Your task to perform on an android device: What is the capital of Spain? Image 0: 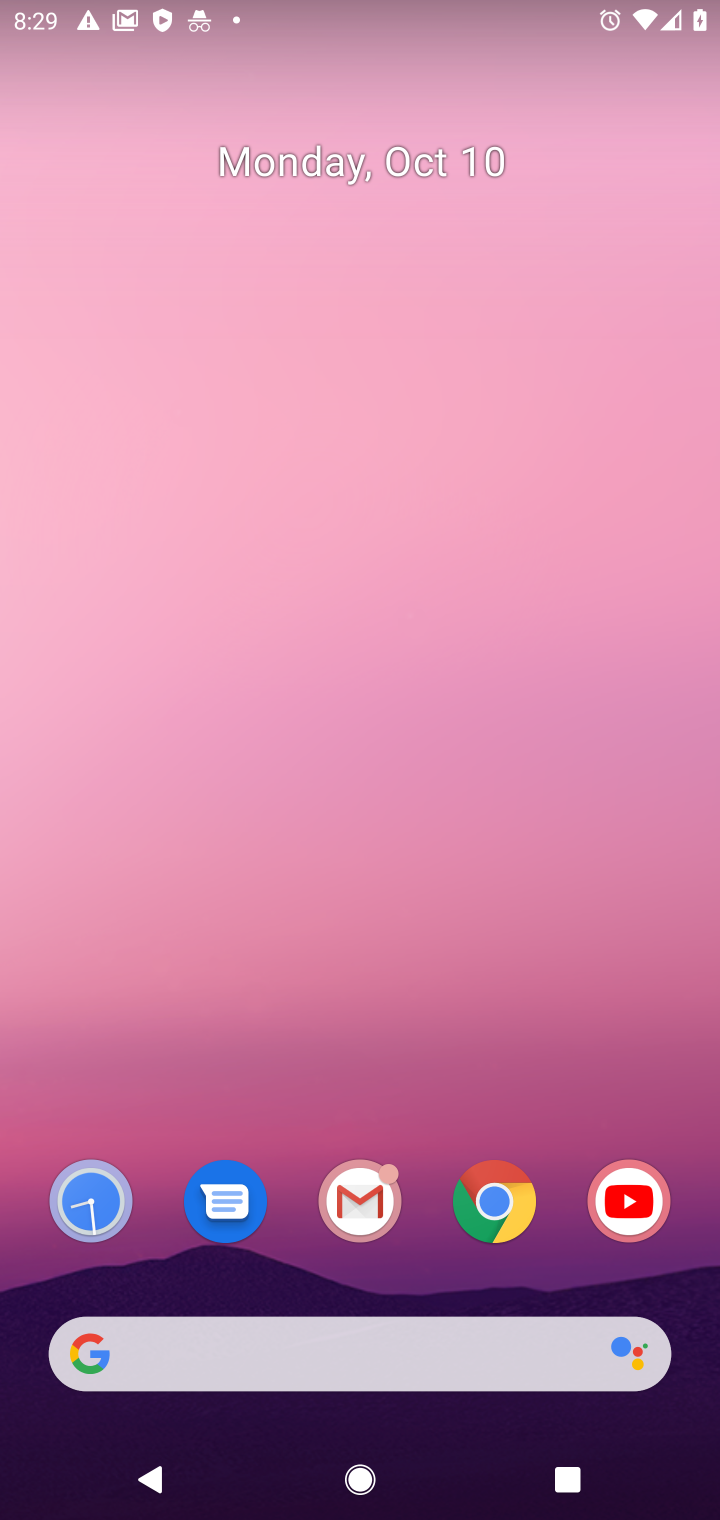
Step 0: click (490, 1235)
Your task to perform on an android device: What is the capital of Spain? Image 1: 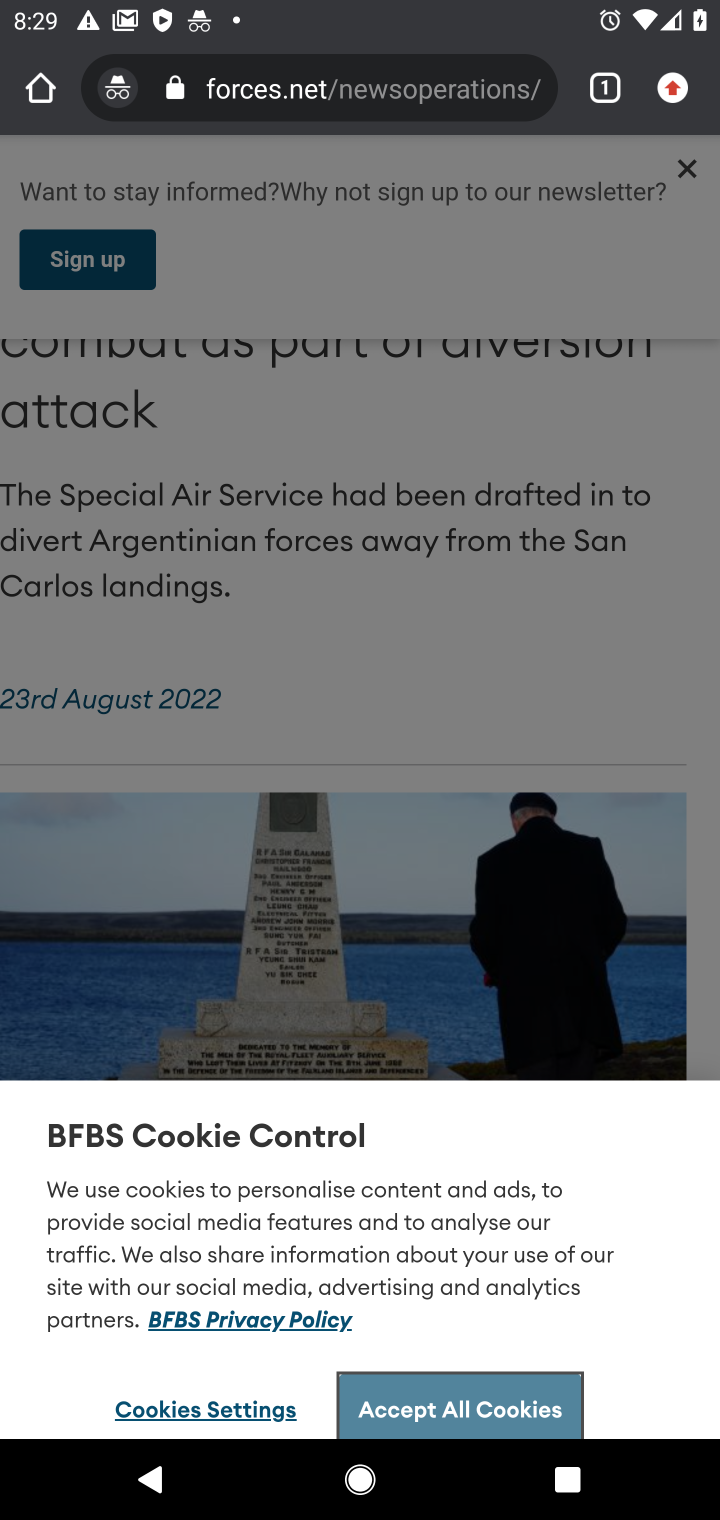
Step 1: click (320, 78)
Your task to perform on an android device: What is the capital of Spain? Image 2: 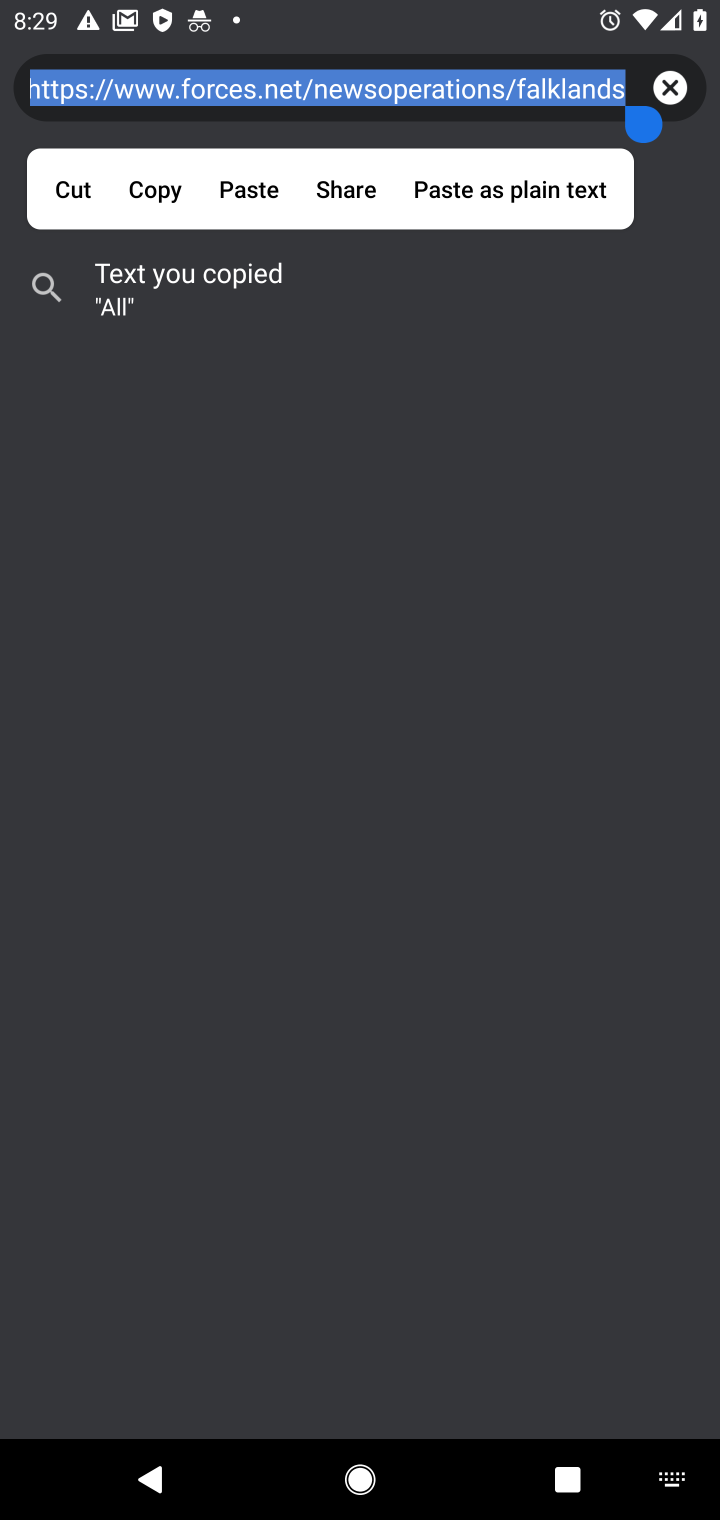
Step 2: type "What is the capital of Spain?"
Your task to perform on an android device: What is the capital of Spain? Image 3: 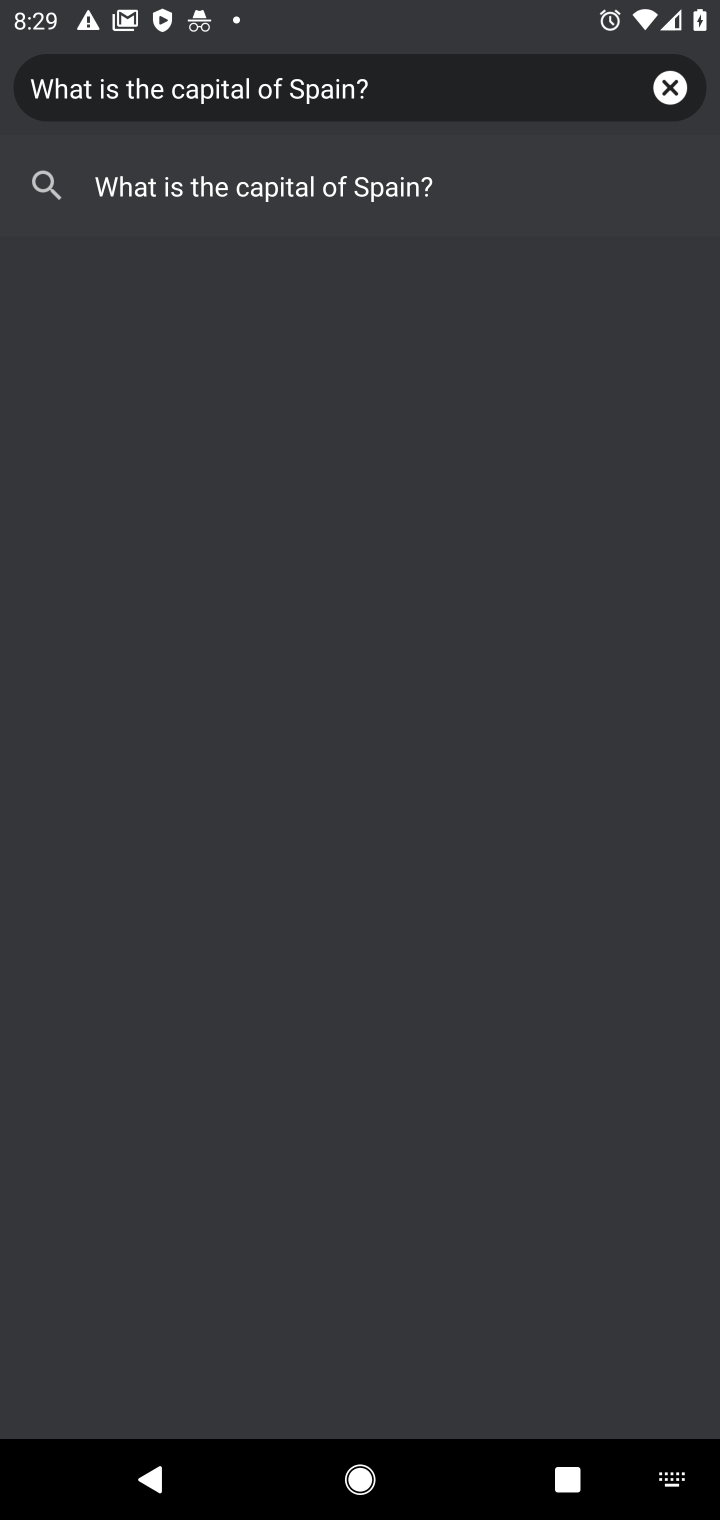
Step 3: type ""
Your task to perform on an android device: What is the capital of Spain? Image 4: 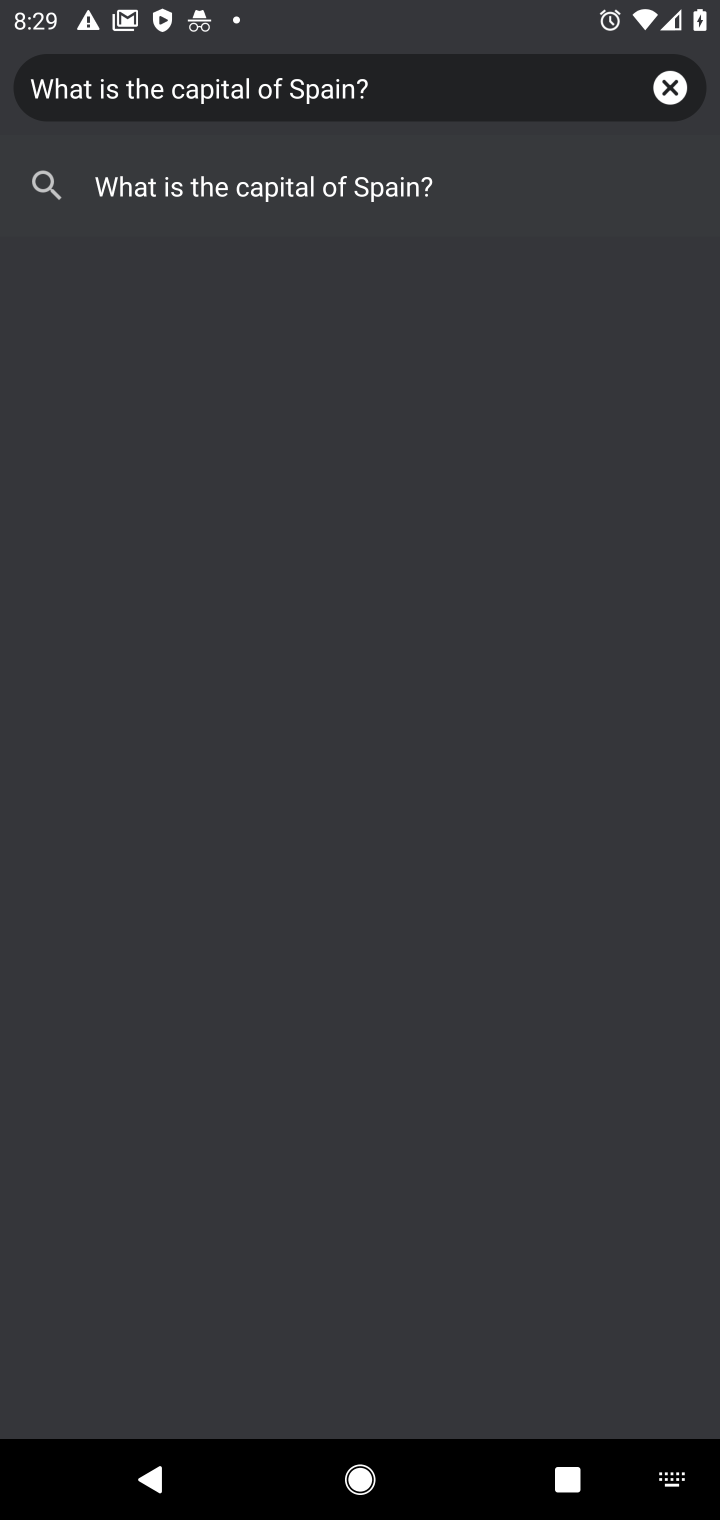
Step 4: click (390, 185)
Your task to perform on an android device: What is the capital of Spain? Image 5: 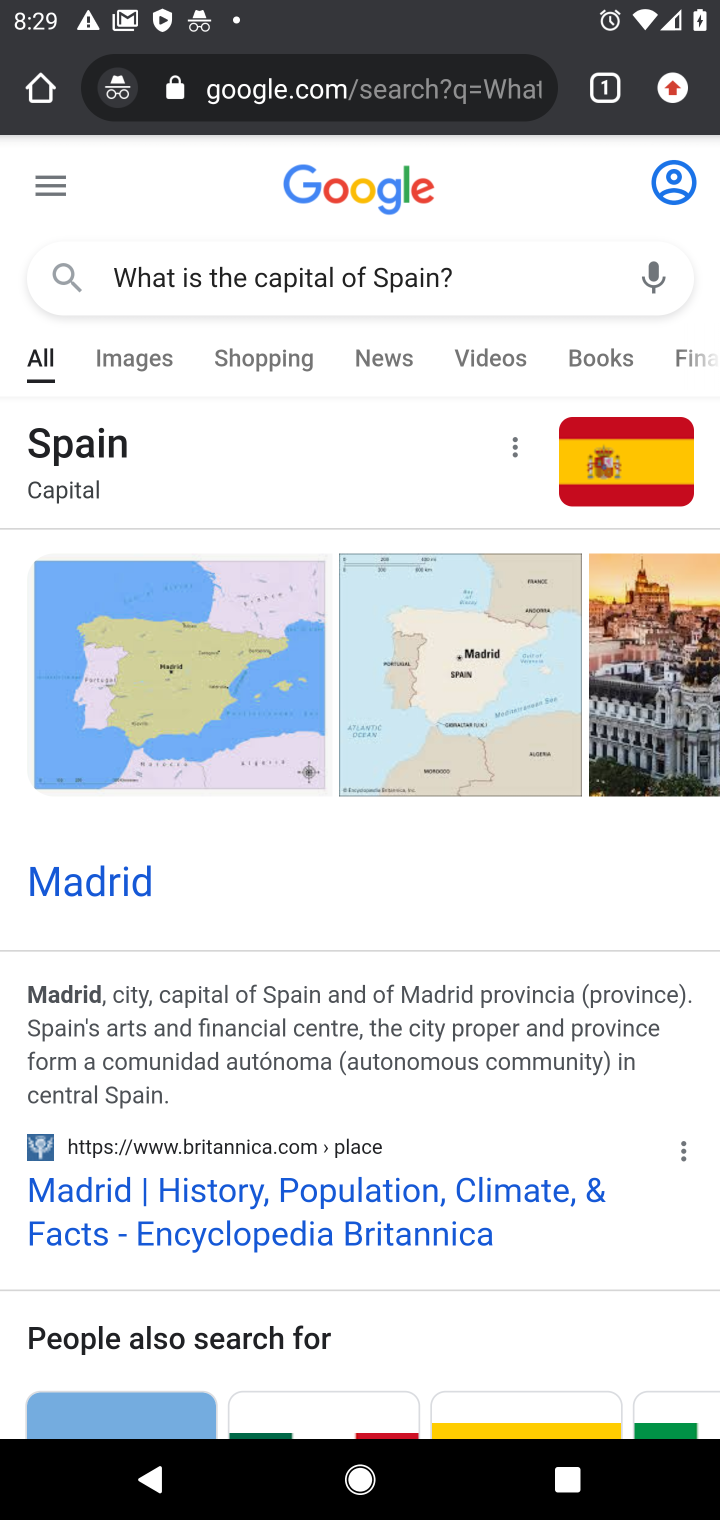
Step 5: drag from (161, 1029) to (246, 494)
Your task to perform on an android device: What is the capital of Spain? Image 6: 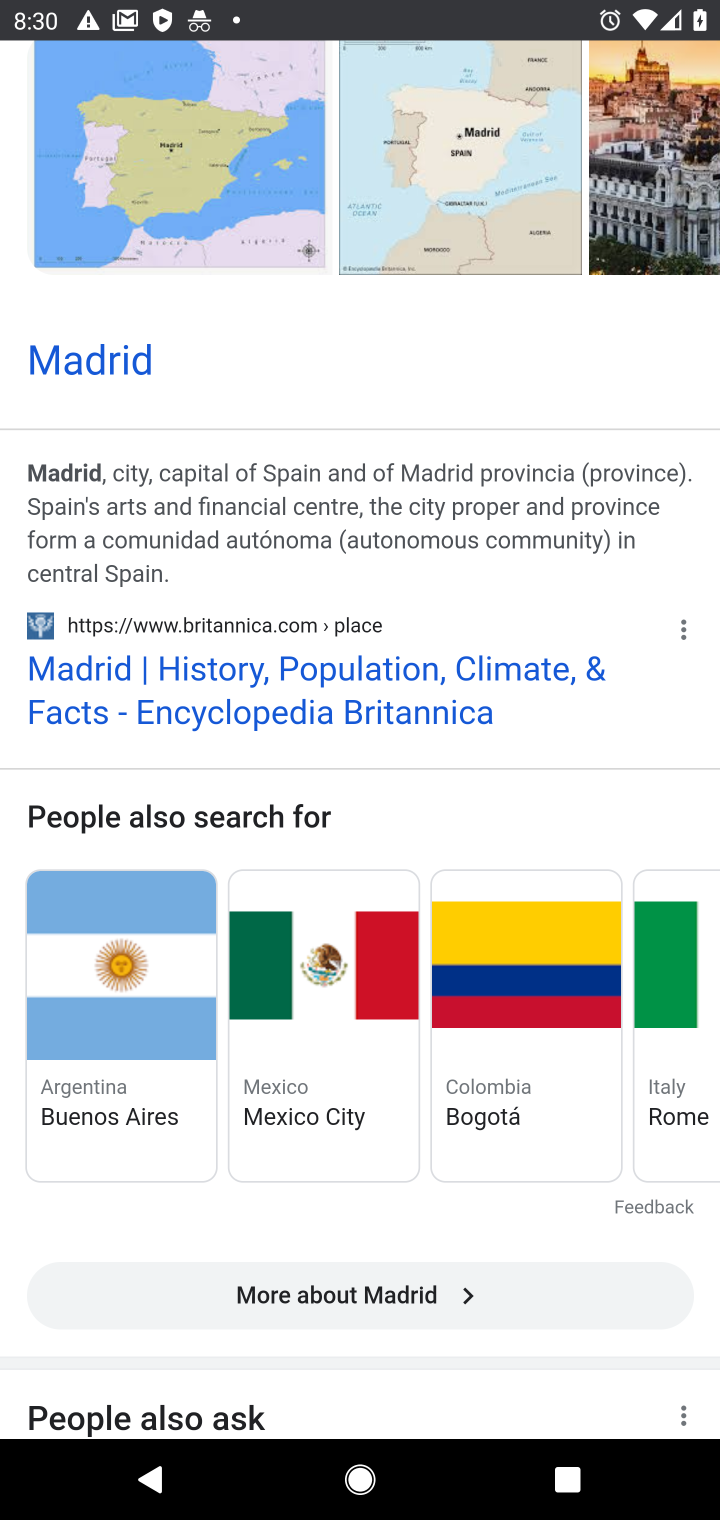
Step 6: click (190, 695)
Your task to perform on an android device: What is the capital of Spain? Image 7: 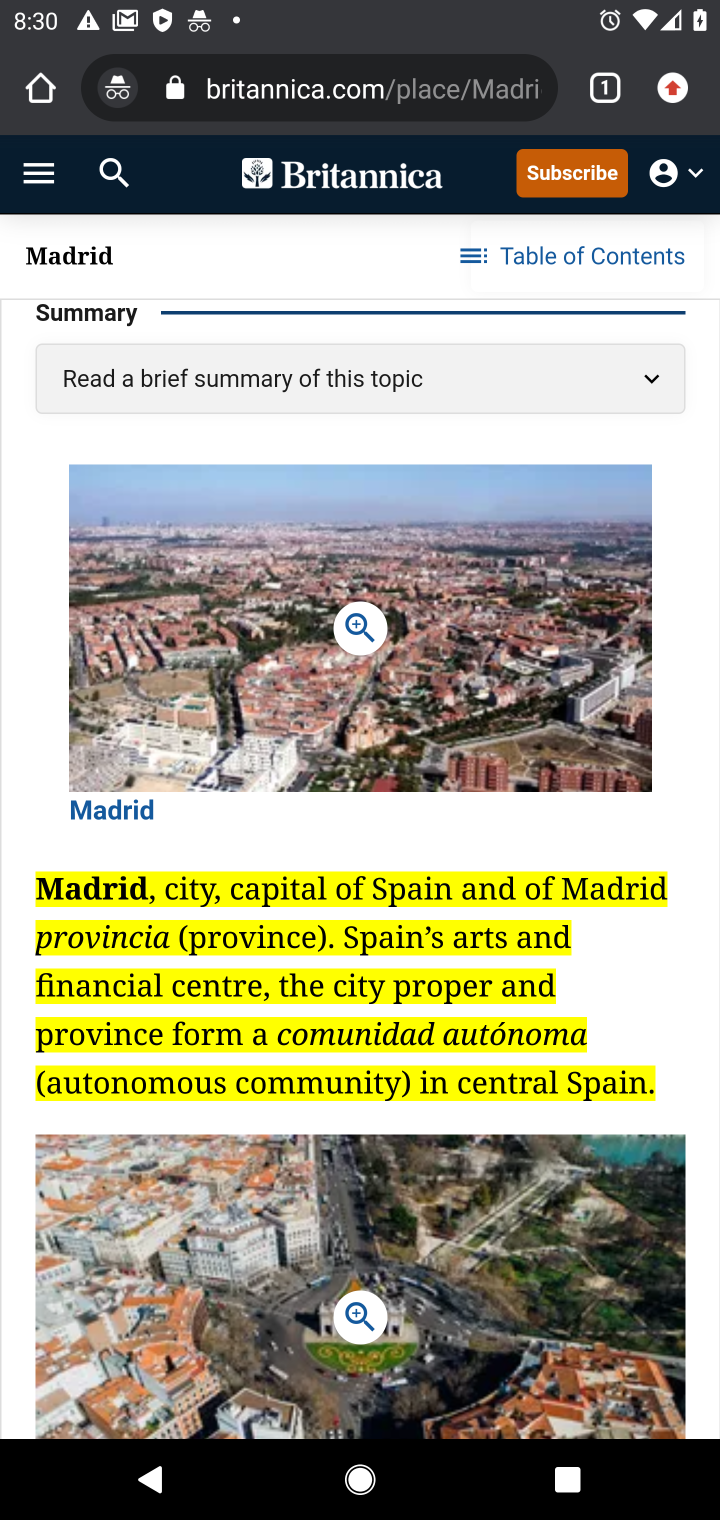
Step 7: drag from (460, 1244) to (595, 311)
Your task to perform on an android device: What is the capital of Spain? Image 8: 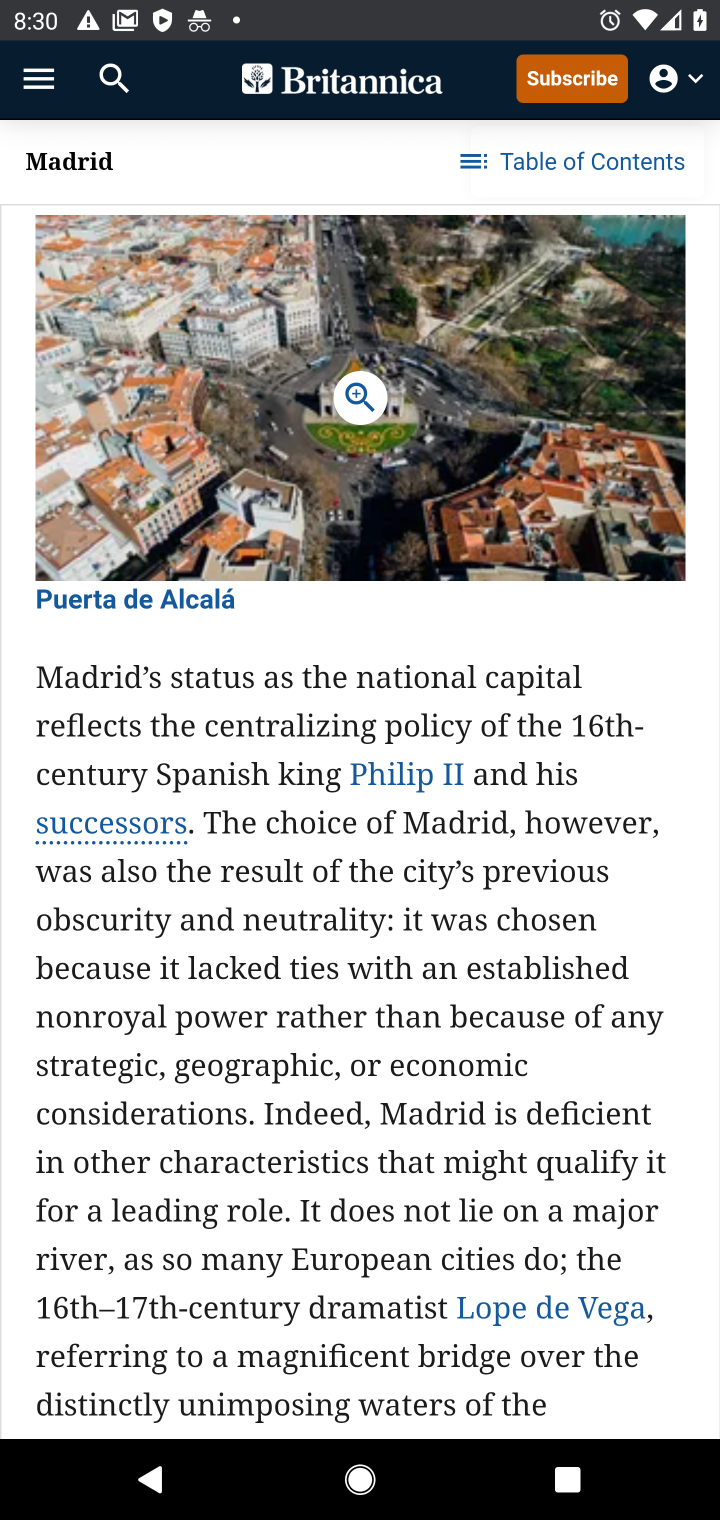
Step 8: drag from (645, 1164) to (601, 180)
Your task to perform on an android device: What is the capital of Spain? Image 9: 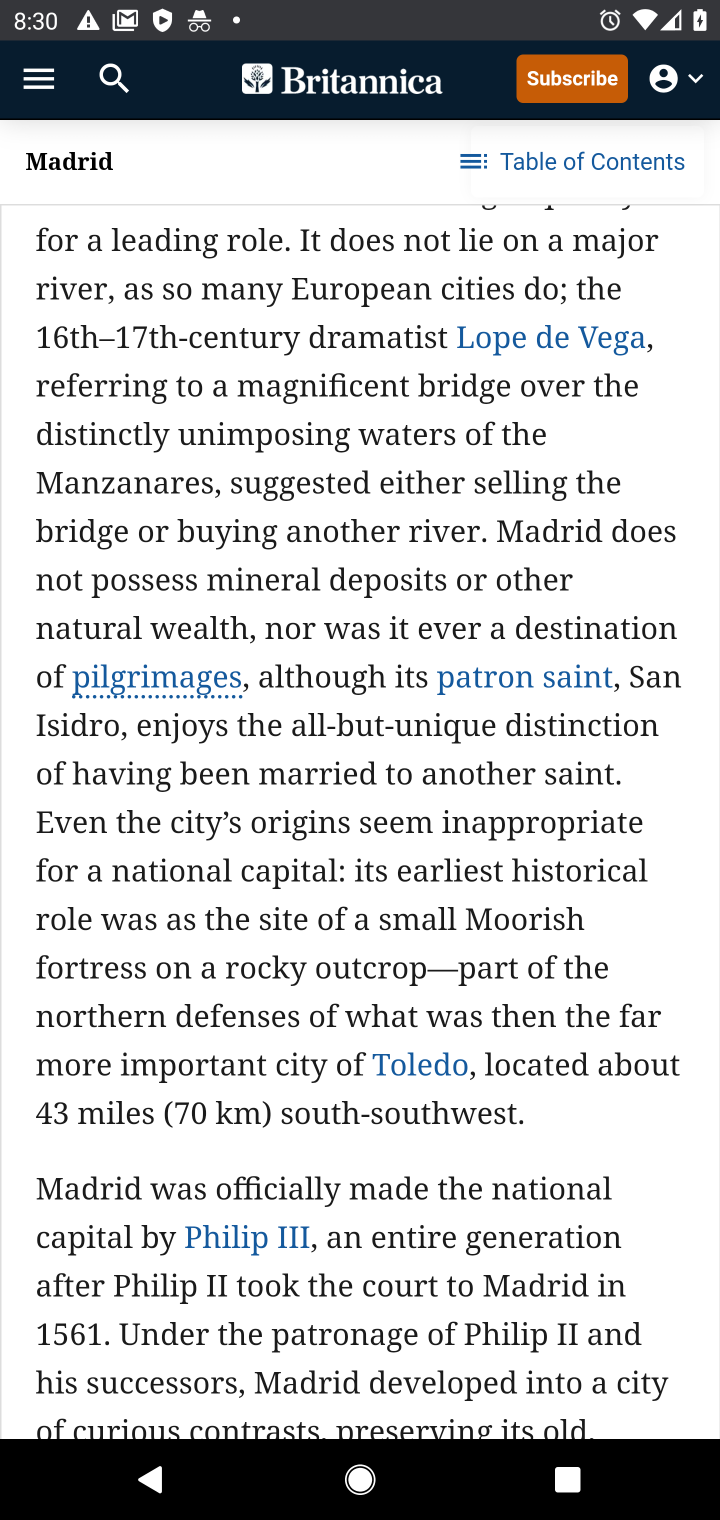
Step 9: drag from (561, 730) to (570, 285)
Your task to perform on an android device: What is the capital of Spain? Image 10: 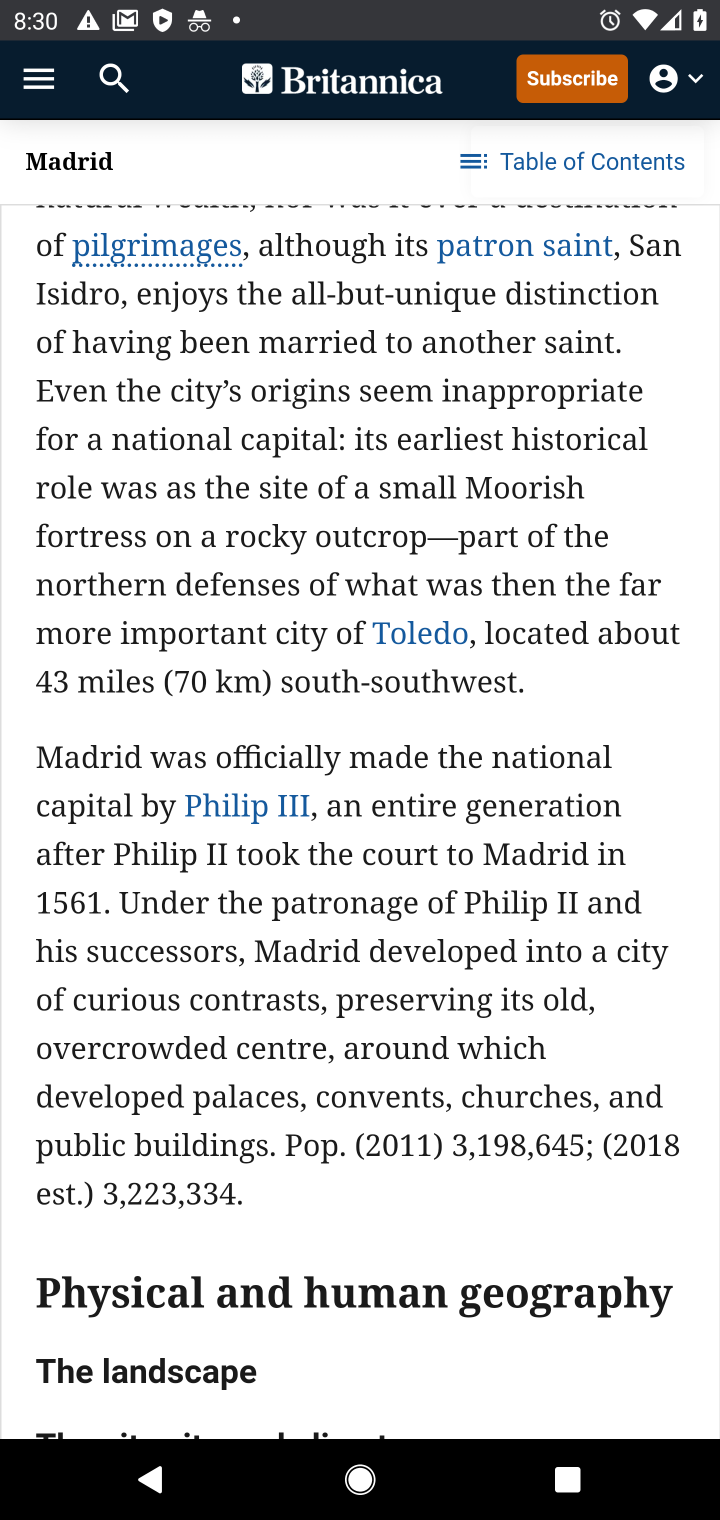
Step 10: drag from (540, 886) to (565, 590)
Your task to perform on an android device: What is the capital of Spain? Image 11: 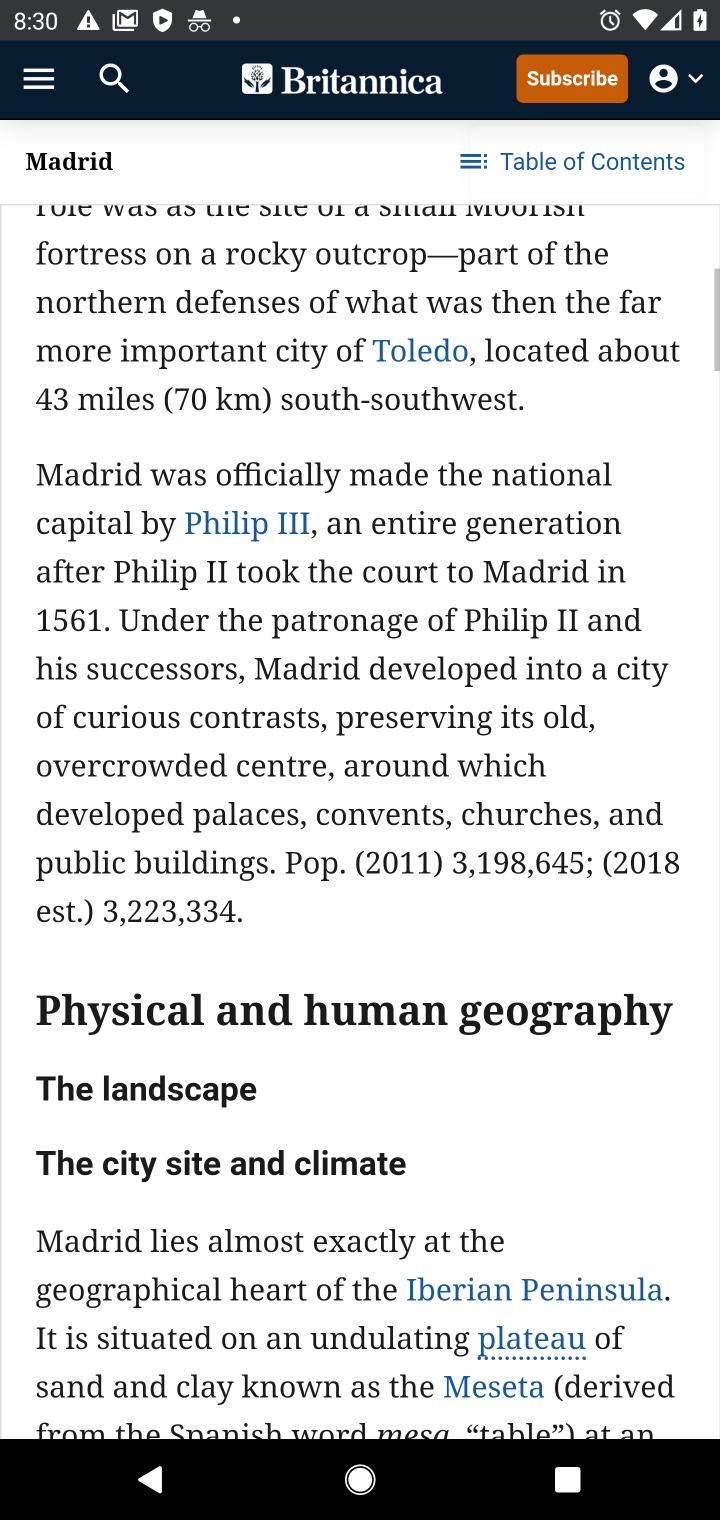
Step 11: drag from (532, 1017) to (649, 331)
Your task to perform on an android device: What is the capital of Spain? Image 12: 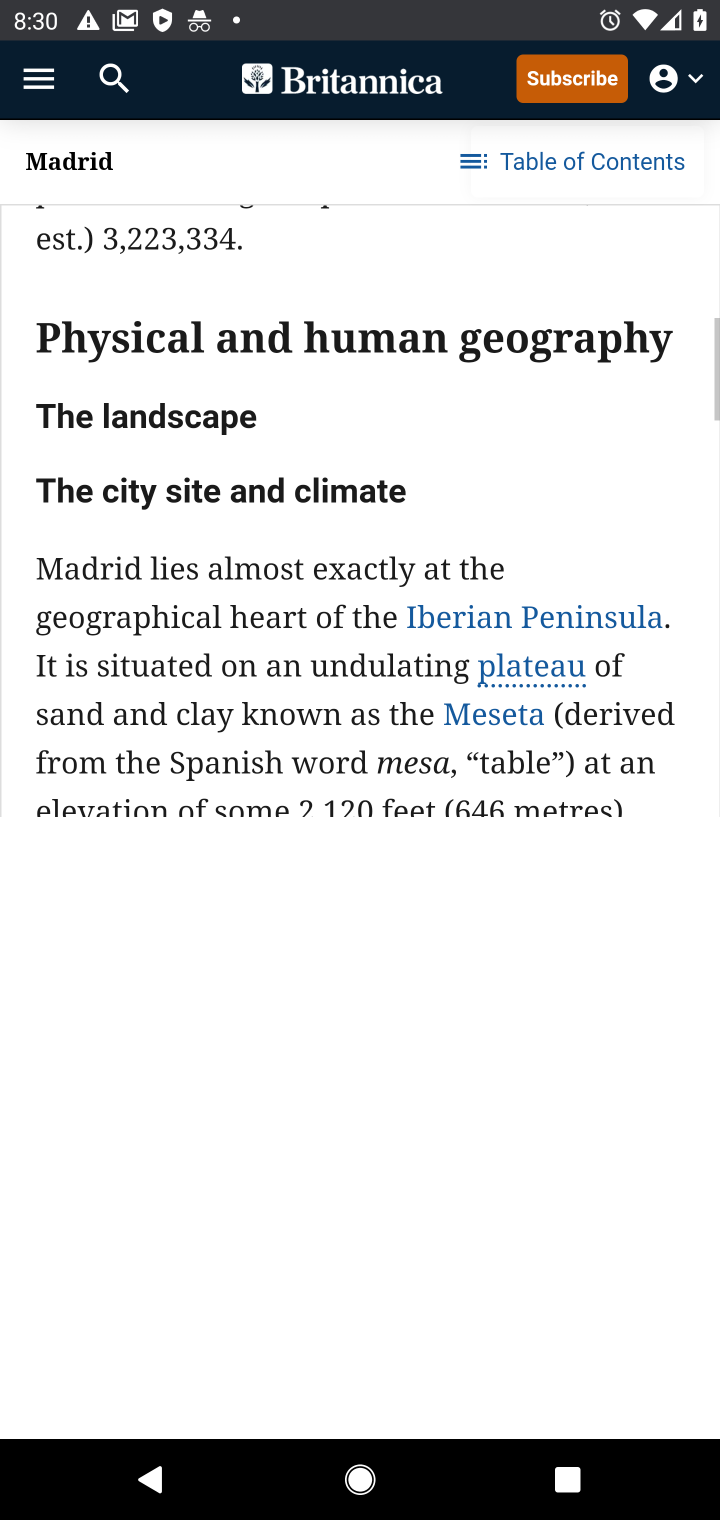
Step 12: drag from (660, 785) to (664, 476)
Your task to perform on an android device: What is the capital of Spain? Image 13: 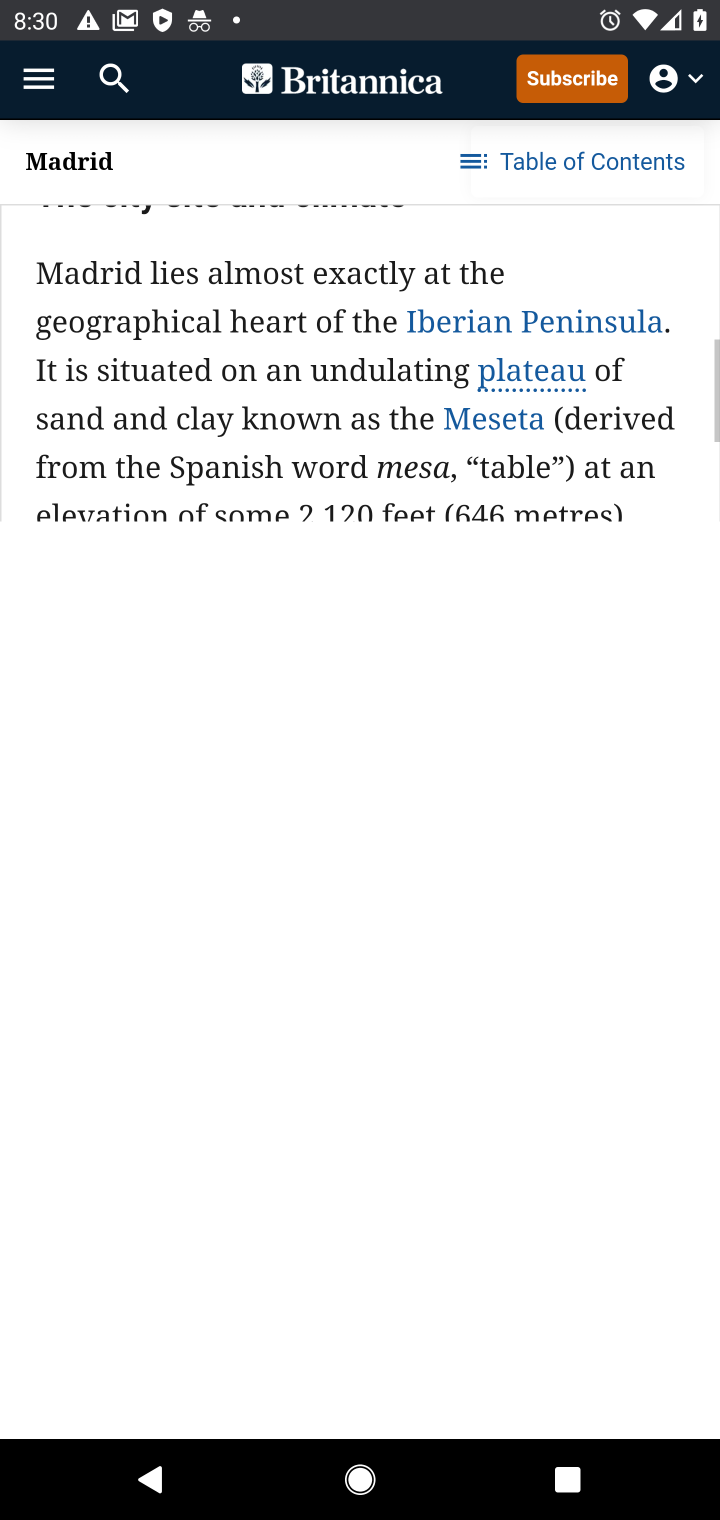
Step 13: drag from (642, 826) to (637, 399)
Your task to perform on an android device: What is the capital of Spain? Image 14: 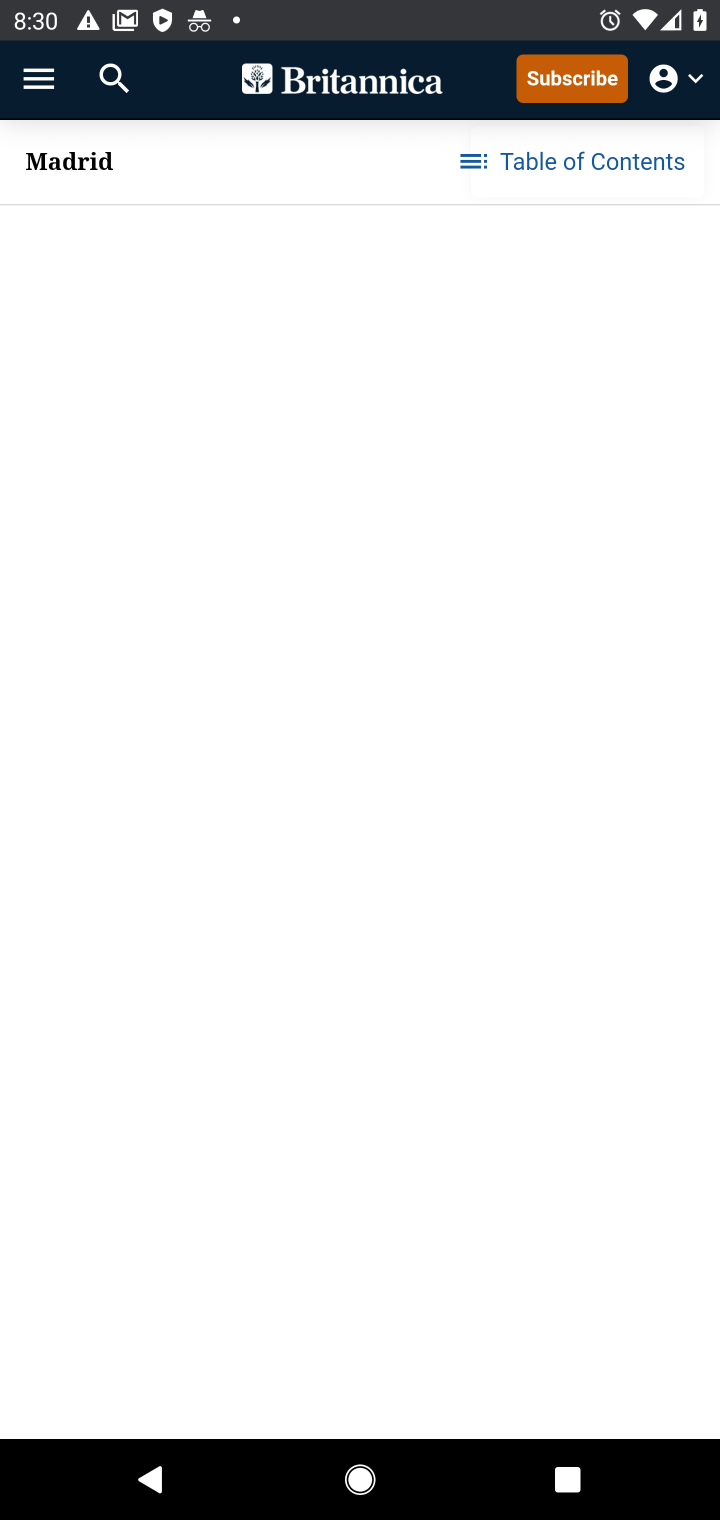
Step 14: drag from (337, 1041) to (324, 287)
Your task to perform on an android device: What is the capital of Spain? Image 15: 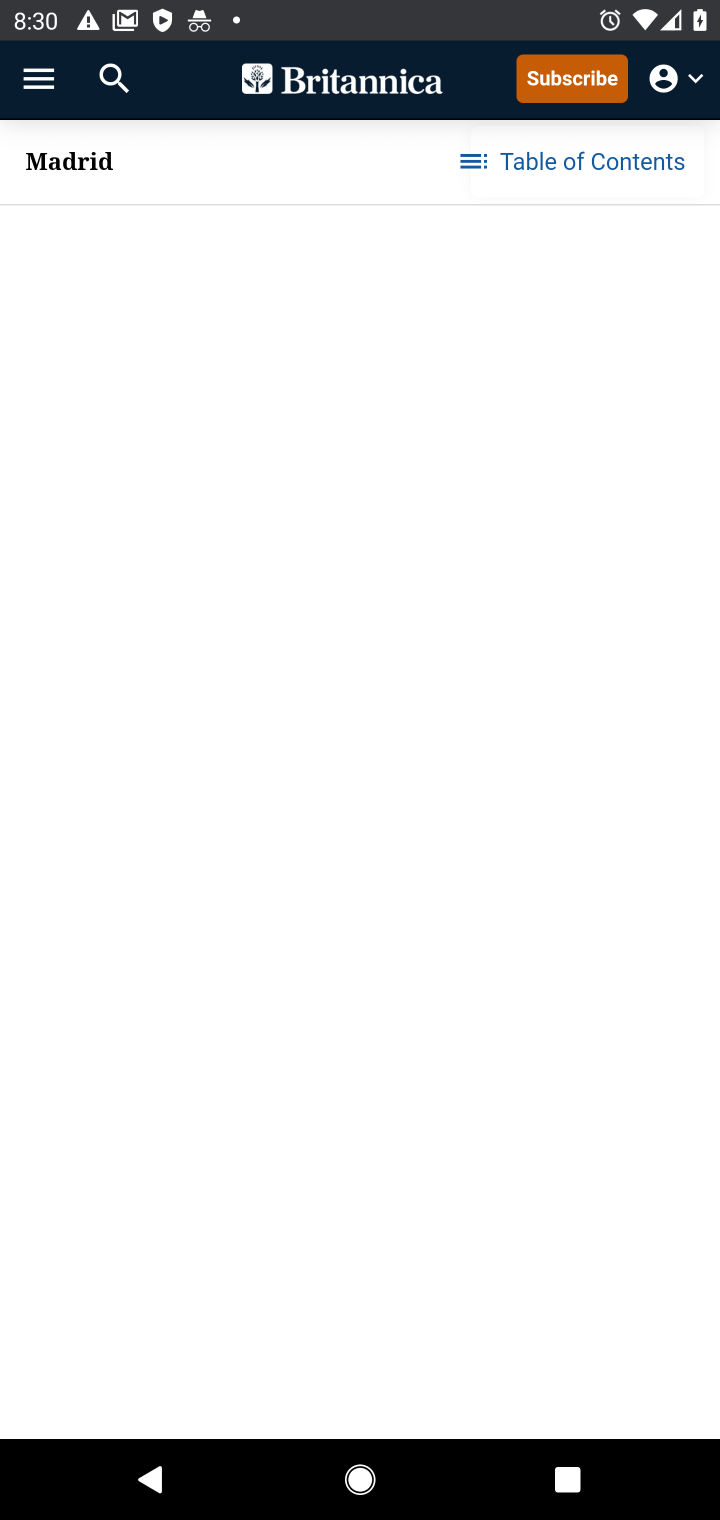
Step 15: drag from (303, 516) to (236, 337)
Your task to perform on an android device: What is the capital of Spain? Image 16: 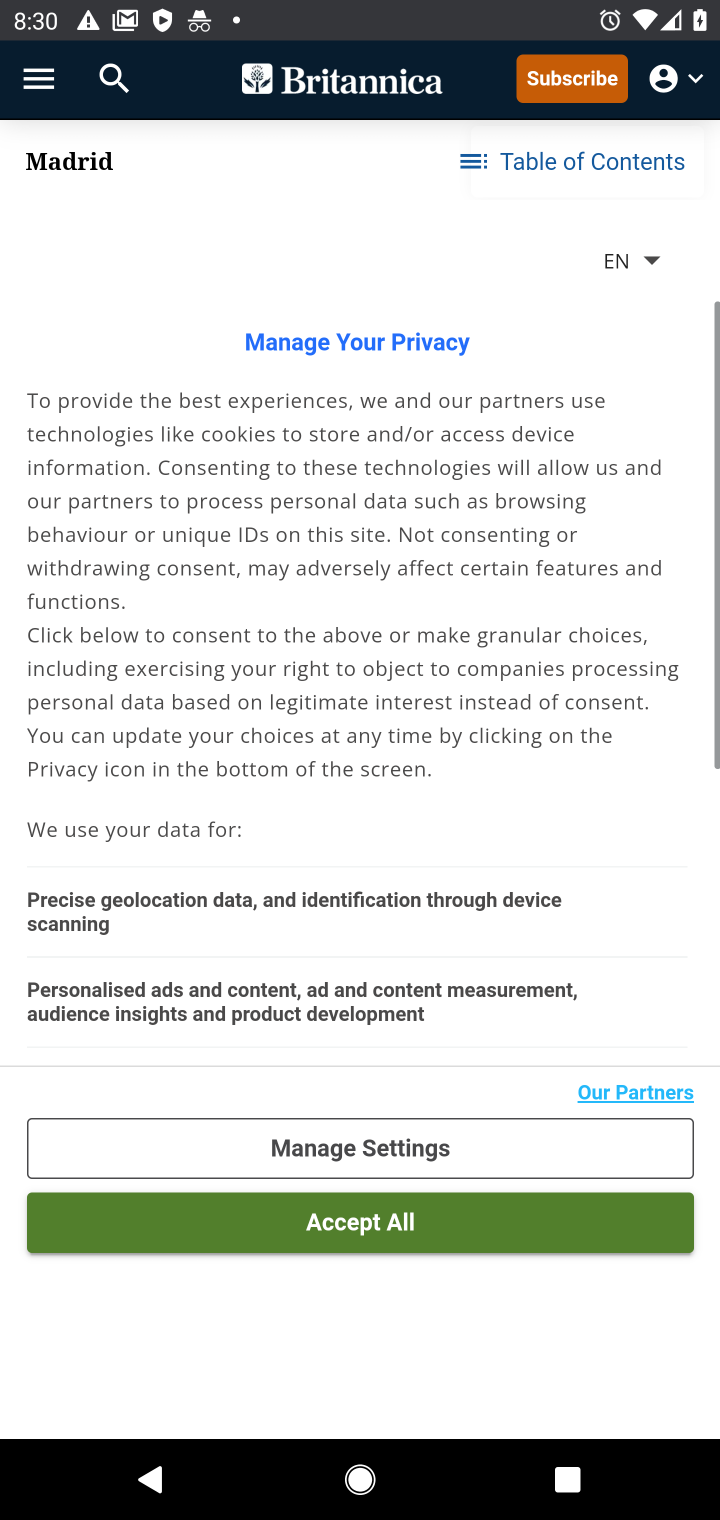
Step 16: drag from (202, 509) to (231, 811)
Your task to perform on an android device: What is the capital of Spain? Image 17: 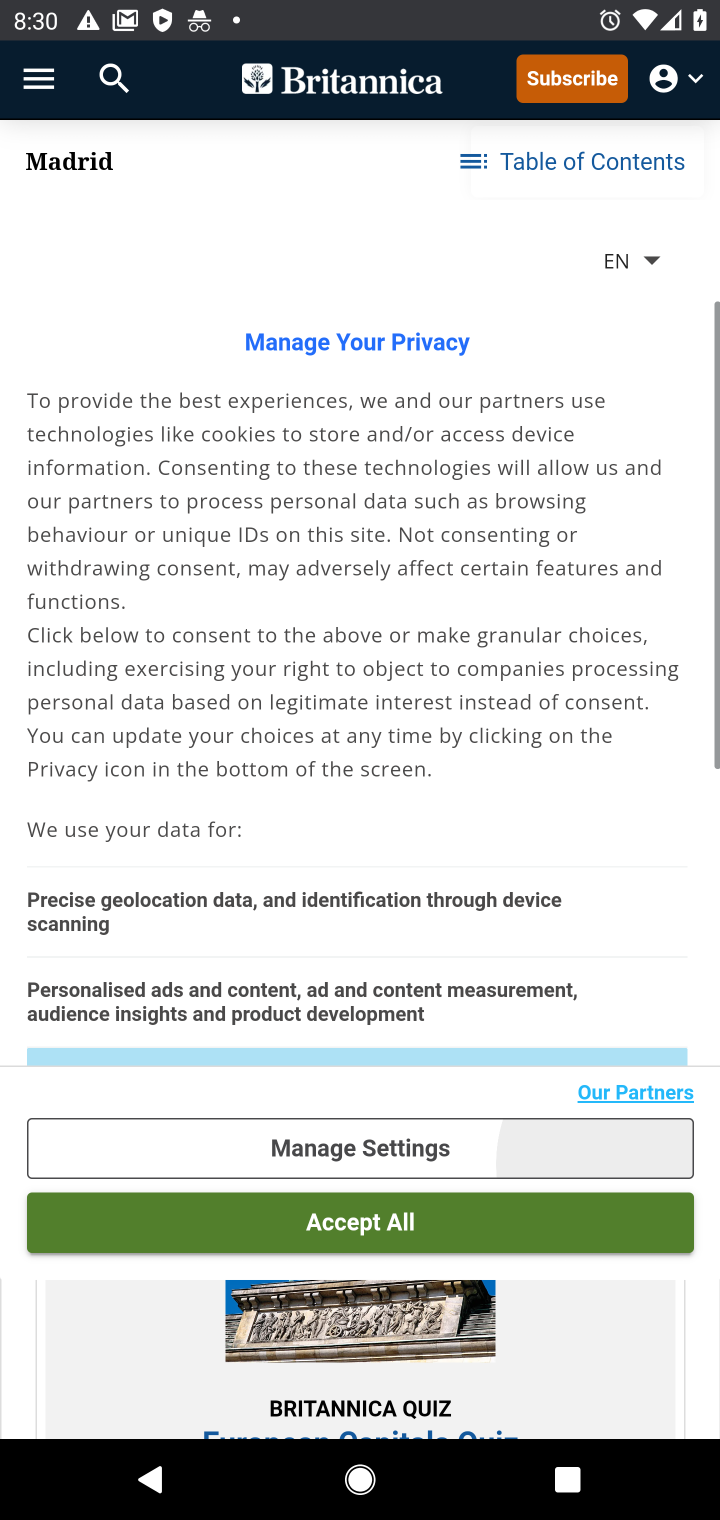
Step 17: click (334, 1231)
Your task to perform on an android device: What is the capital of Spain? Image 18: 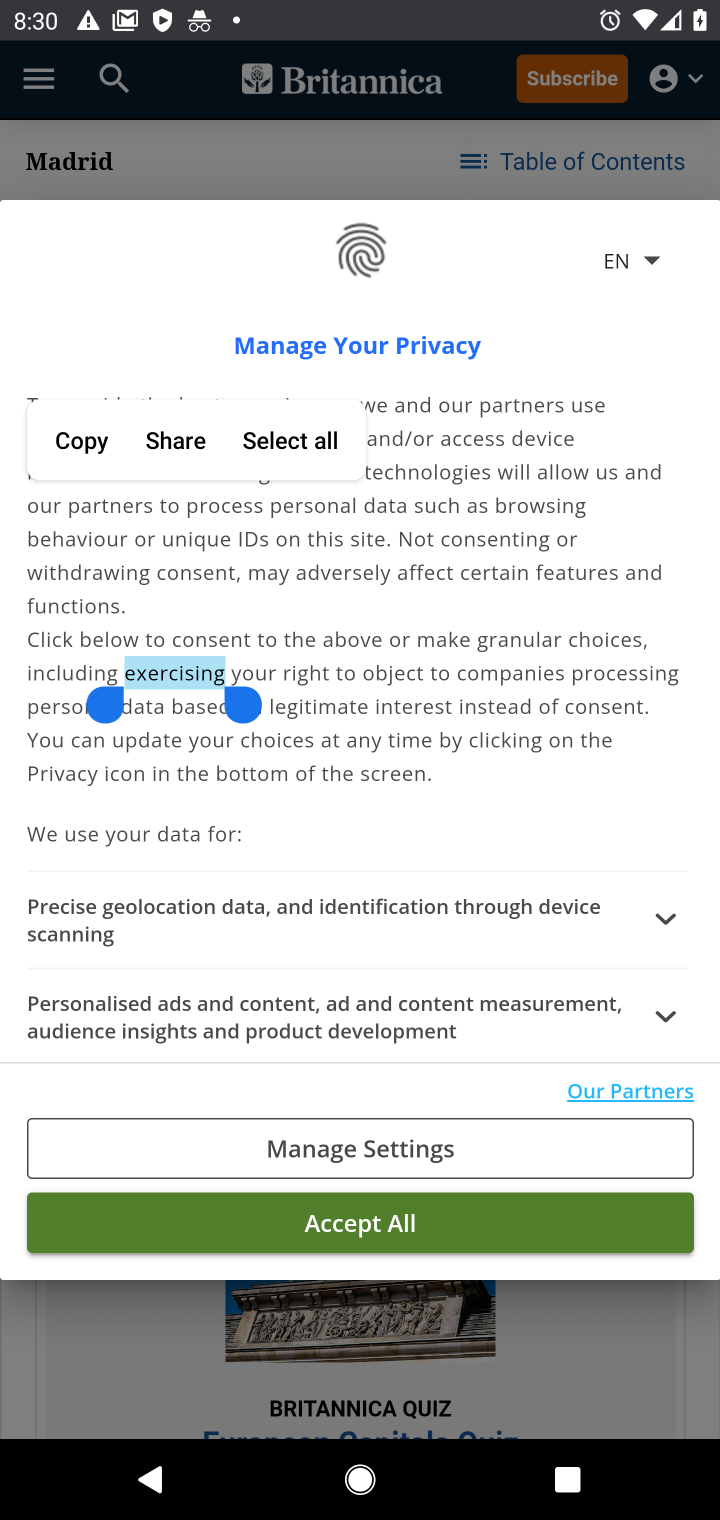
Step 18: click (334, 1231)
Your task to perform on an android device: What is the capital of Spain? Image 19: 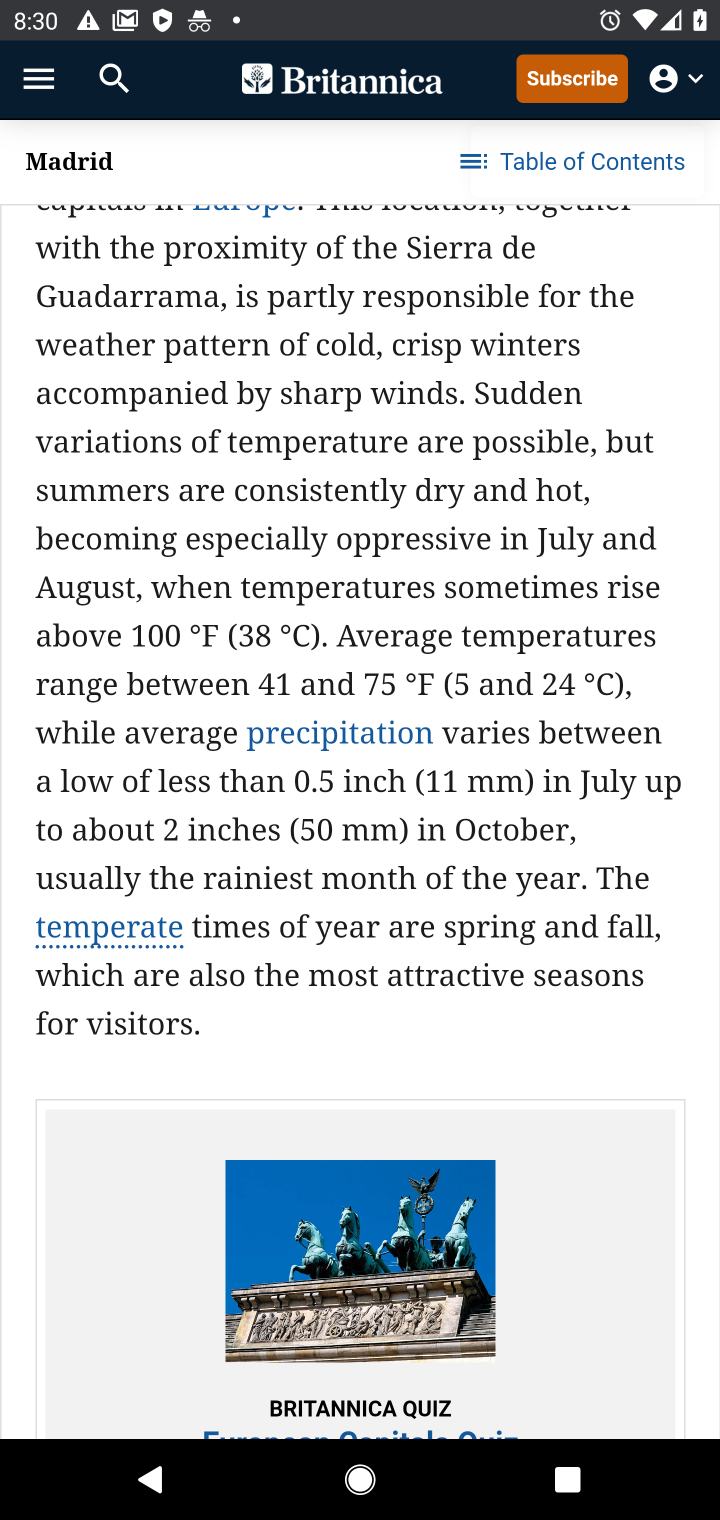
Step 19: drag from (520, 967) to (554, 208)
Your task to perform on an android device: What is the capital of Spain? Image 20: 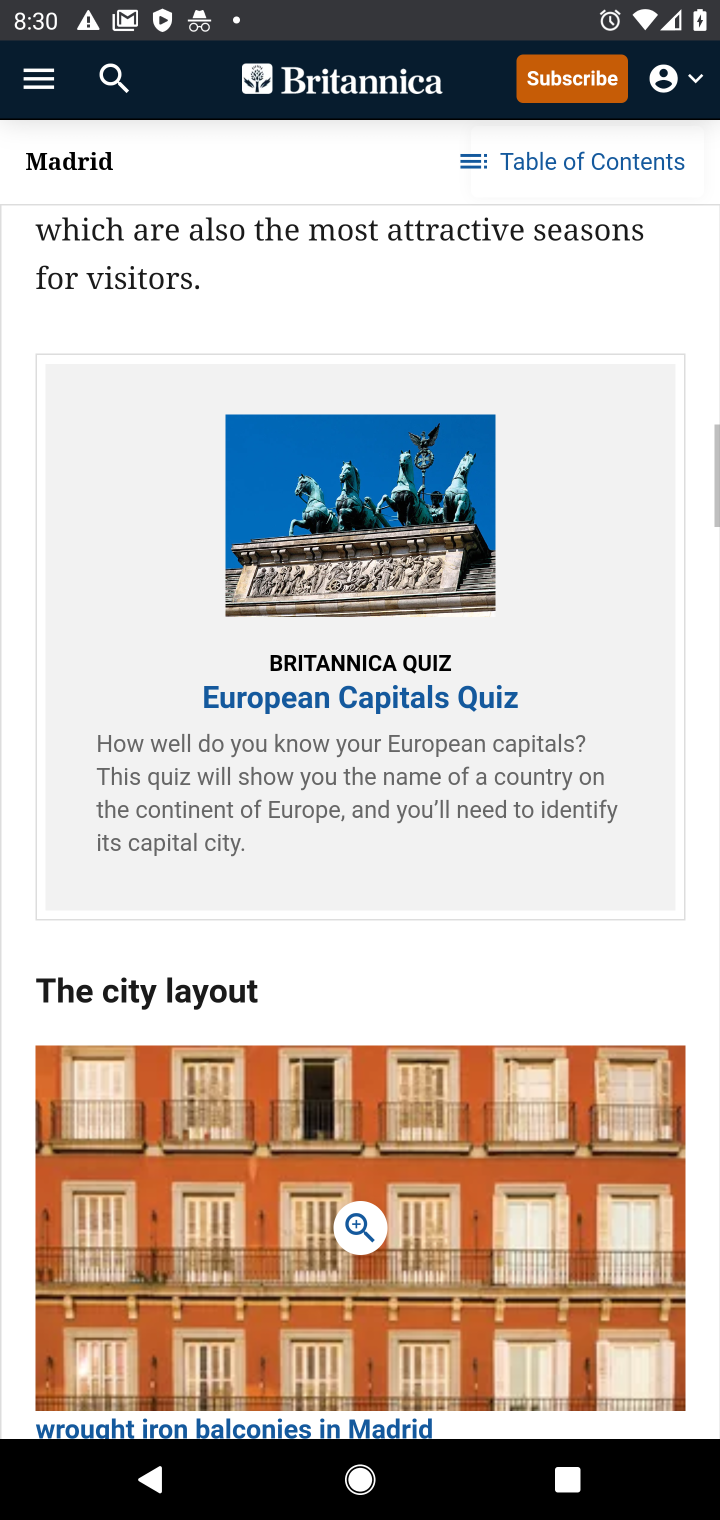
Step 20: drag from (494, 1154) to (567, 259)
Your task to perform on an android device: What is the capital of Spain? Image 21: 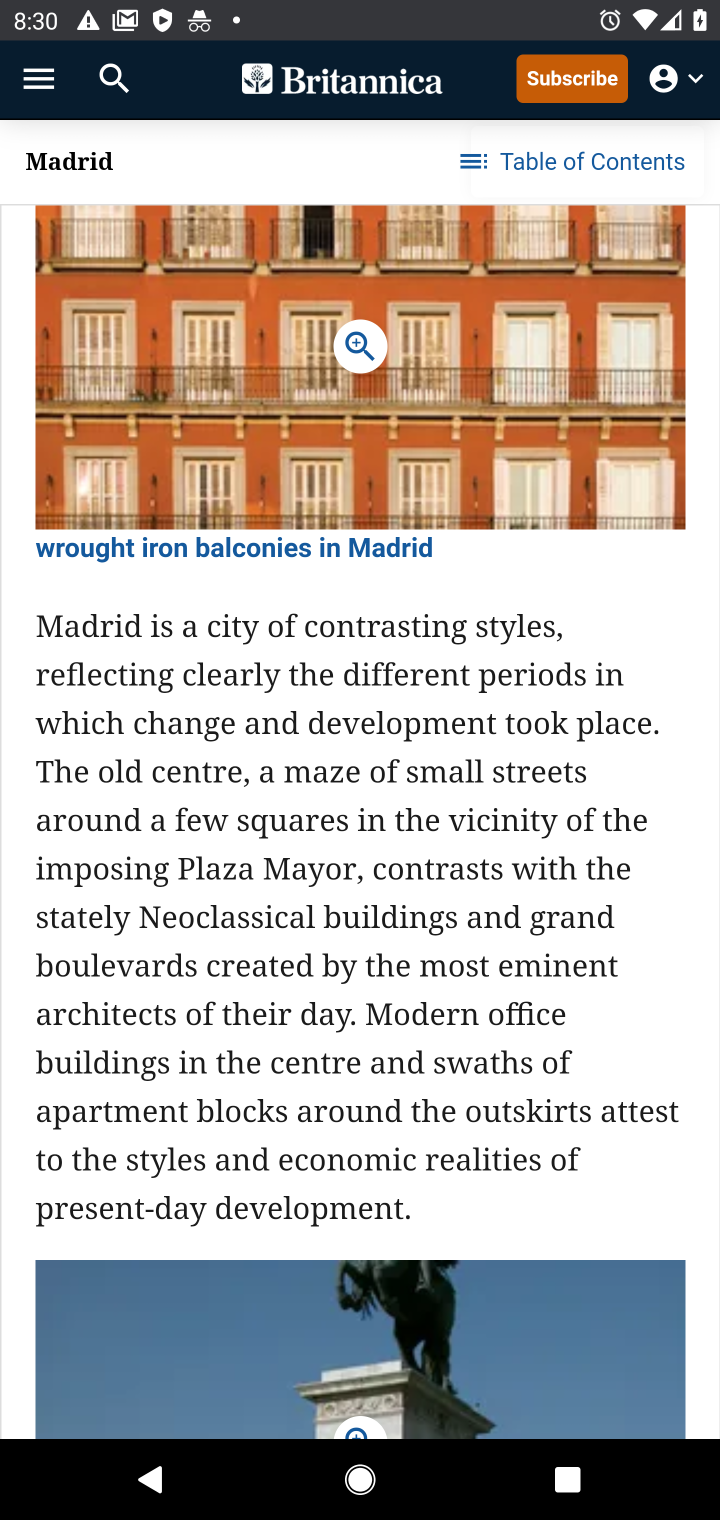
Step 21: drag from (374, 1167) to (433, 186)
Your task to perform on an android device: What is the capital of Spain? Image 22: 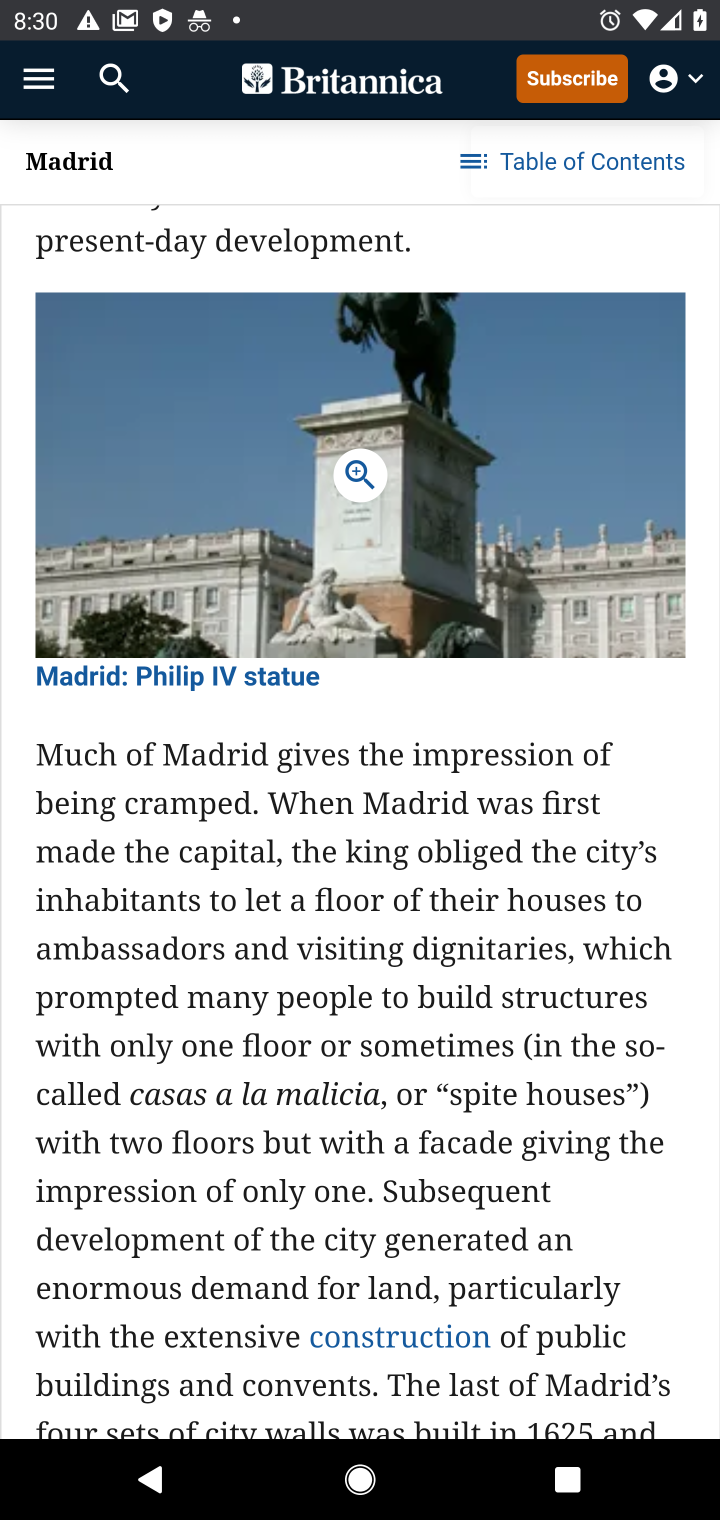
Step 22: drag from (543, 1281) to (500, 226)
Your task to perform on an android device: What is the capital of Spain? Image 23: 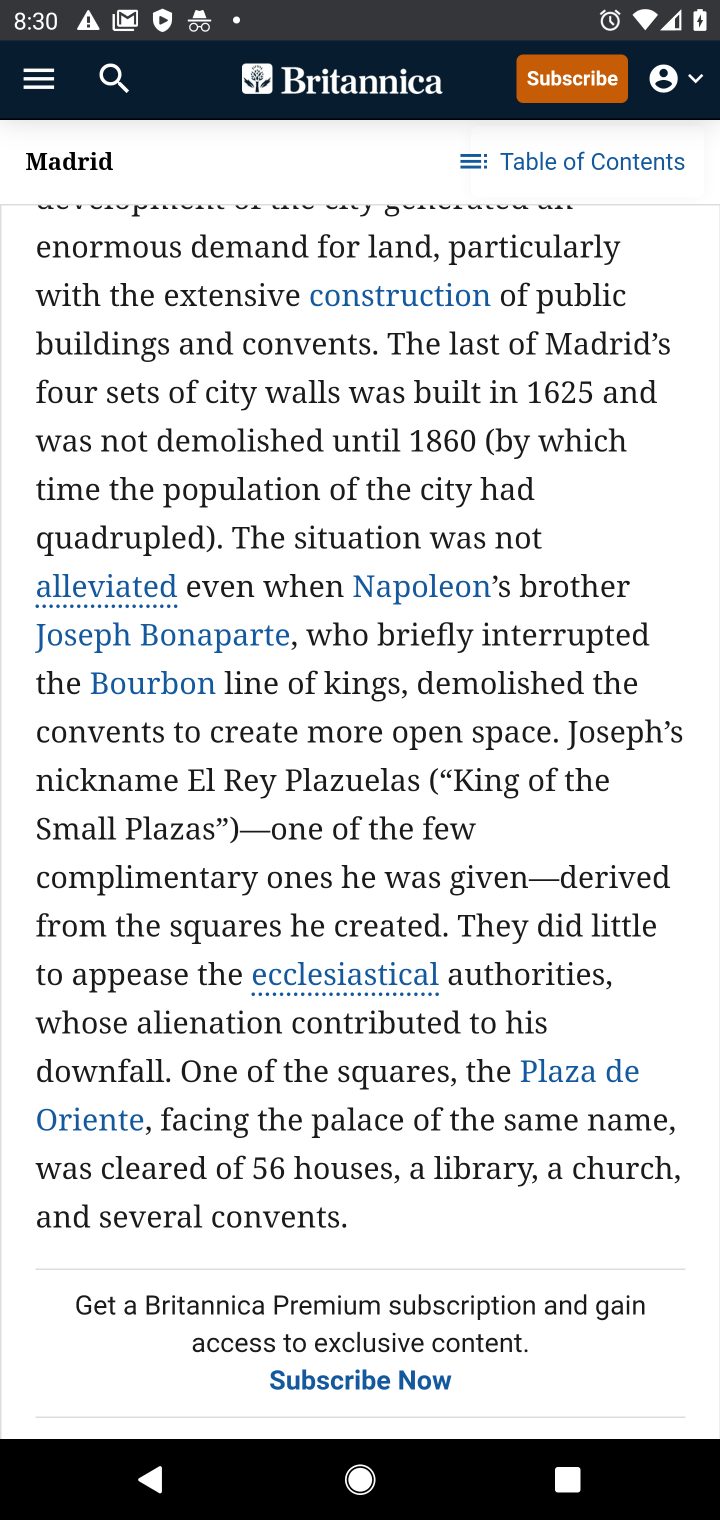
Step 23: drag from (604, 1380) to (580, 206)
Your task to perform on an android device: What is the capital of Spain? Image 24: 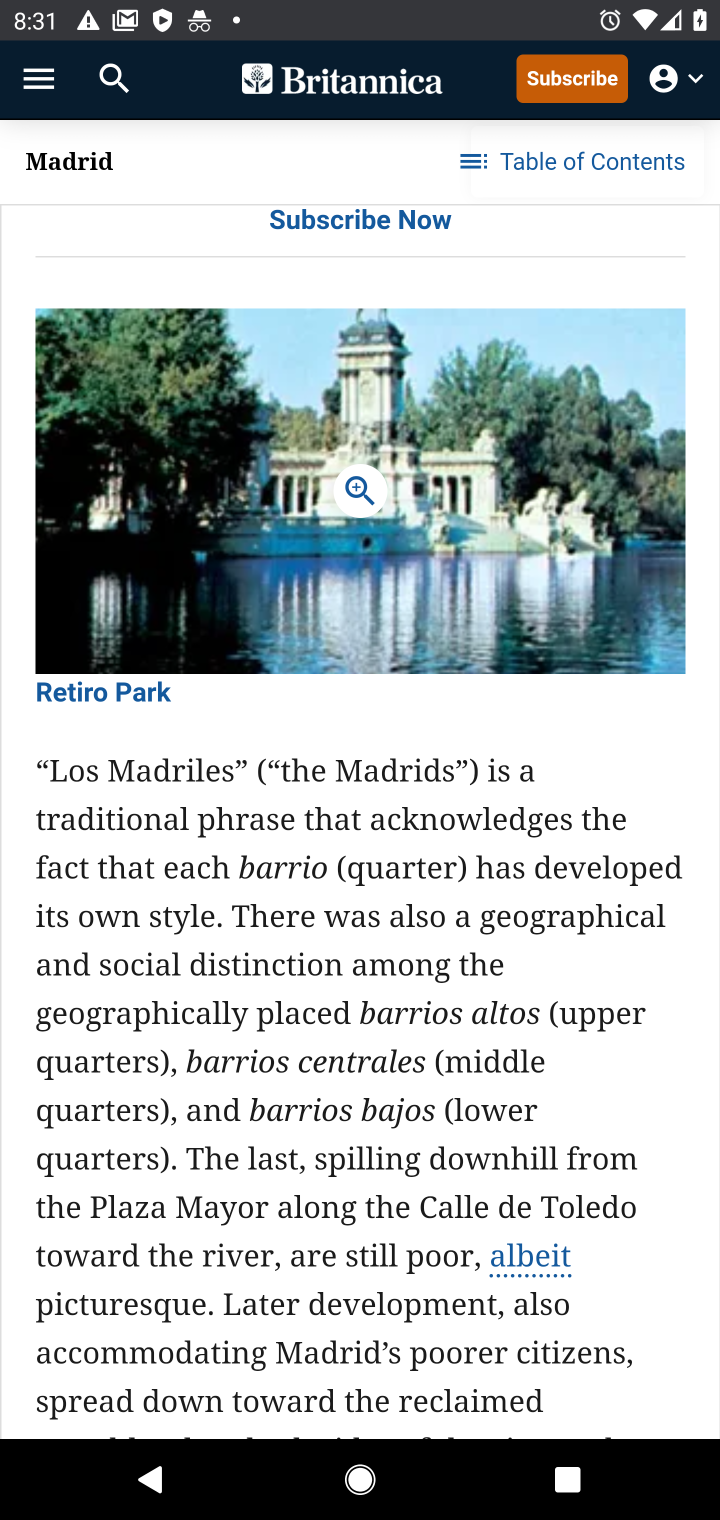
Step 24: drag from (466, 605) to (385, 173)
Your task to perform on an android device: What is the capital of Spain? Image 25: 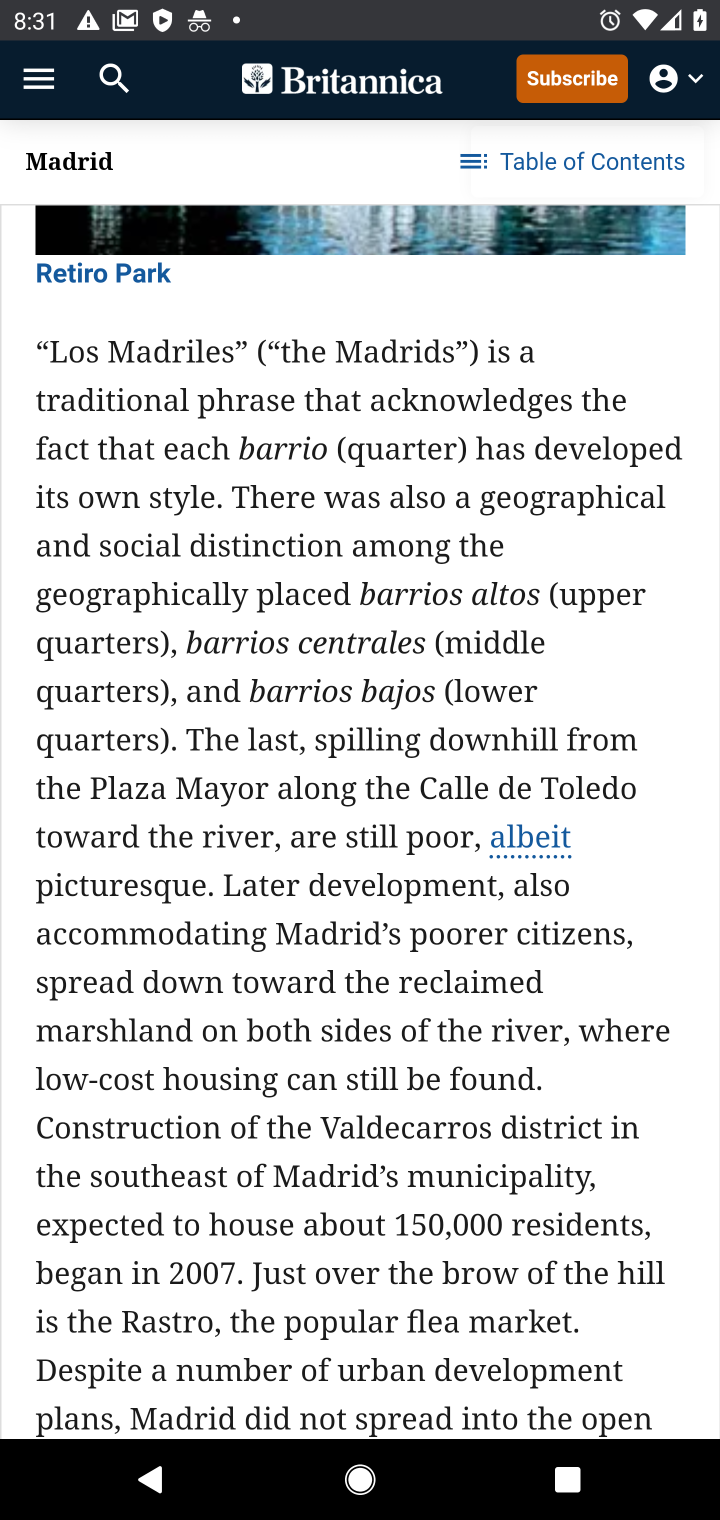
Step 25: press back button
Your task to perform on an android device: What is the capital of Spain? Image 26: 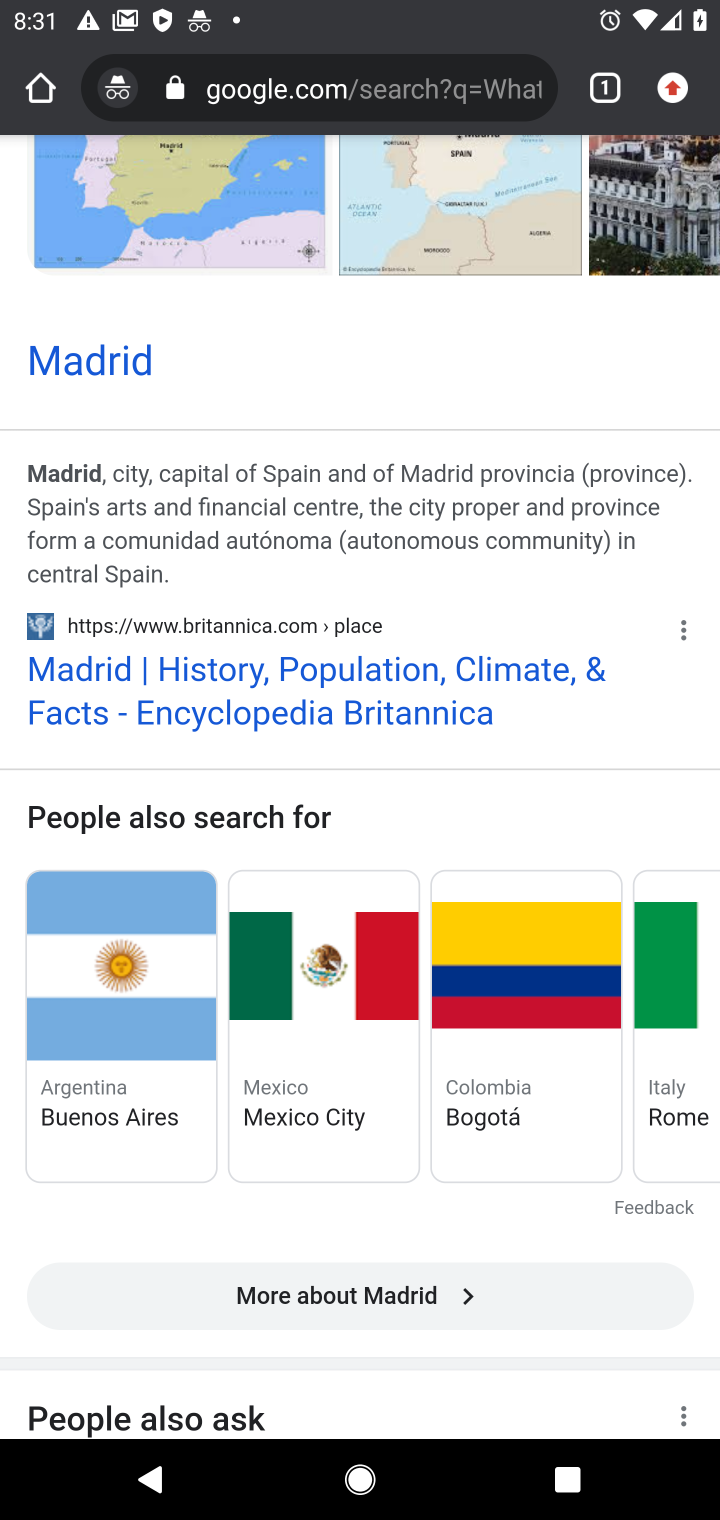
Step 26: drag from (232, 1192) to (341, 222)
Your task to perform on an android device: What is the capital of Spain? Image 27: 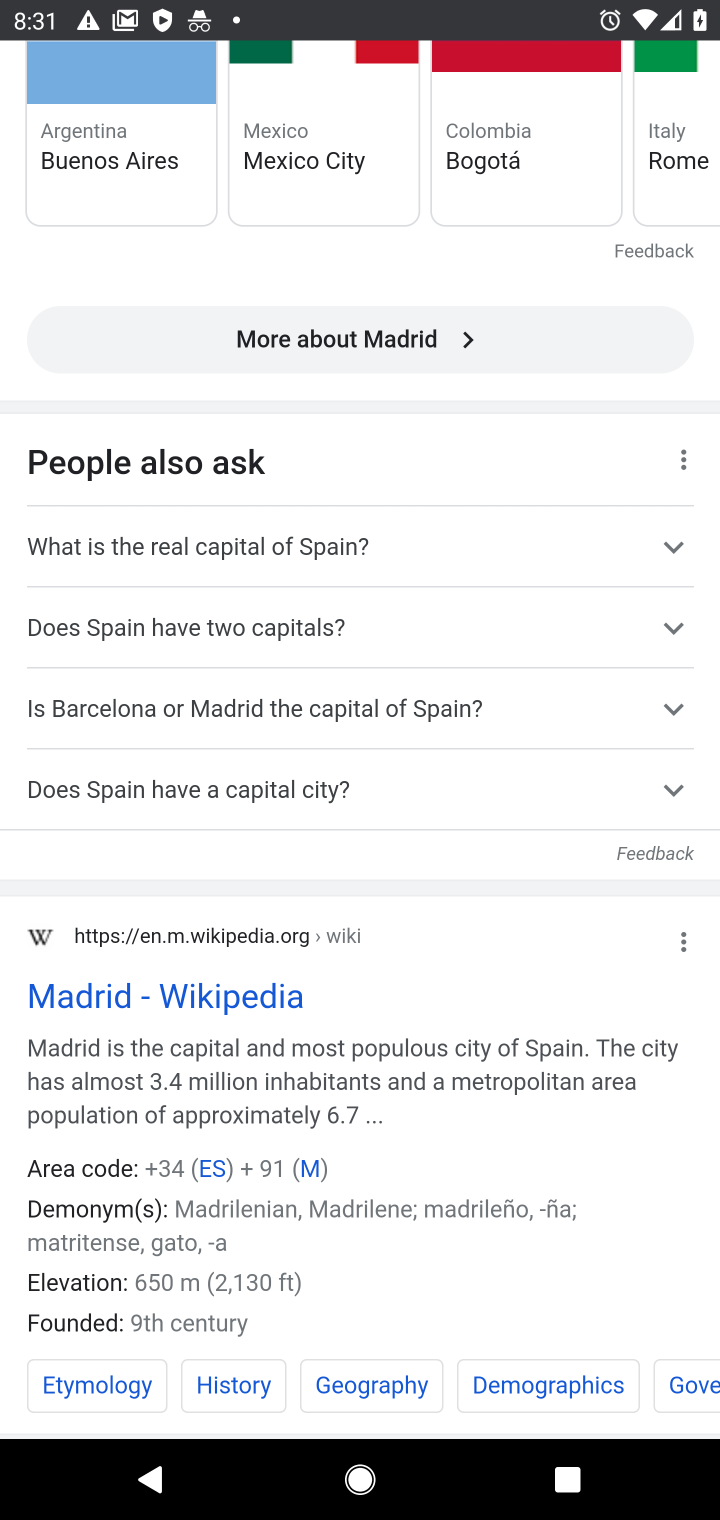
Step 27: click (149, 988)
Your task to perform on an android device: What is the capital of Spain? Image 28: 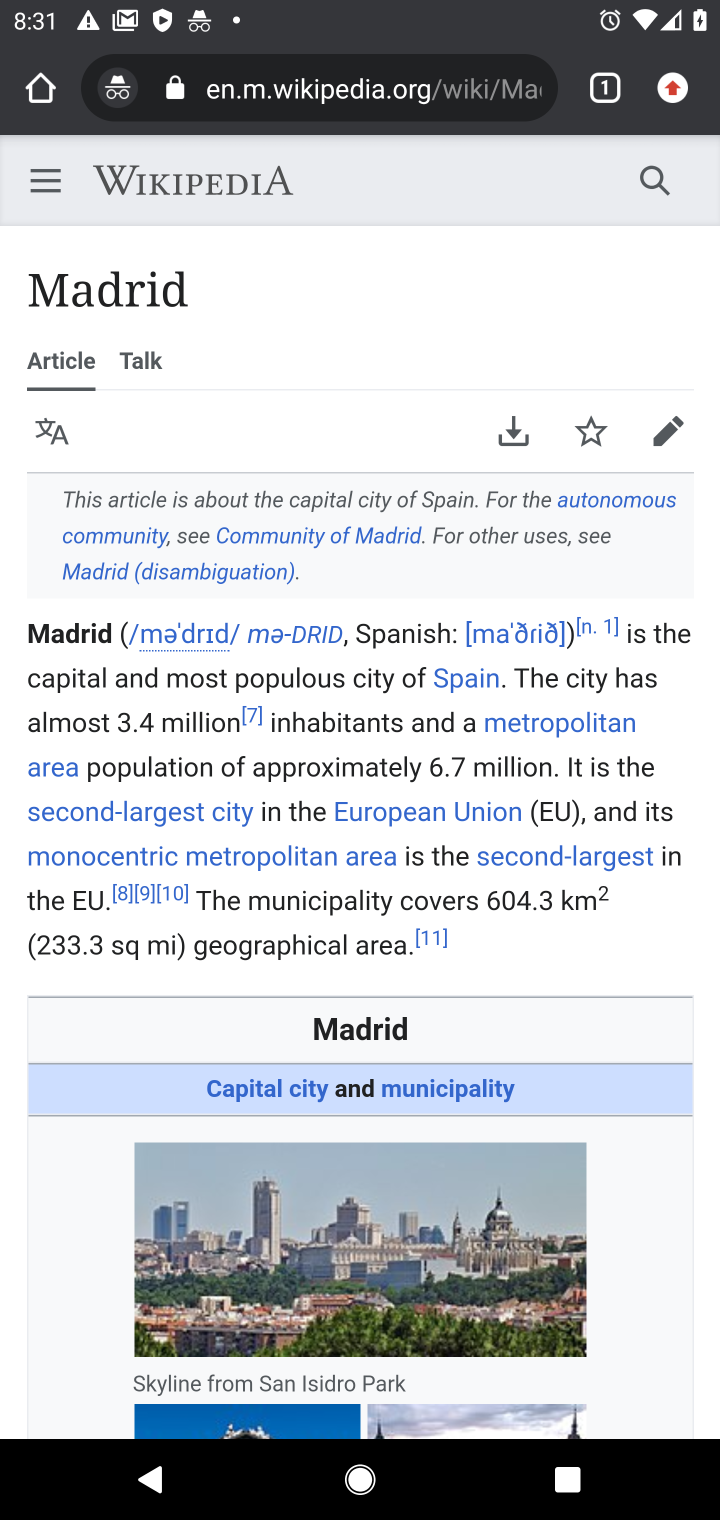
Step 28: drag from (159, 1143) to (283, 273)
Your task to perform on an android device: What is the capital of Spain? Image 29: 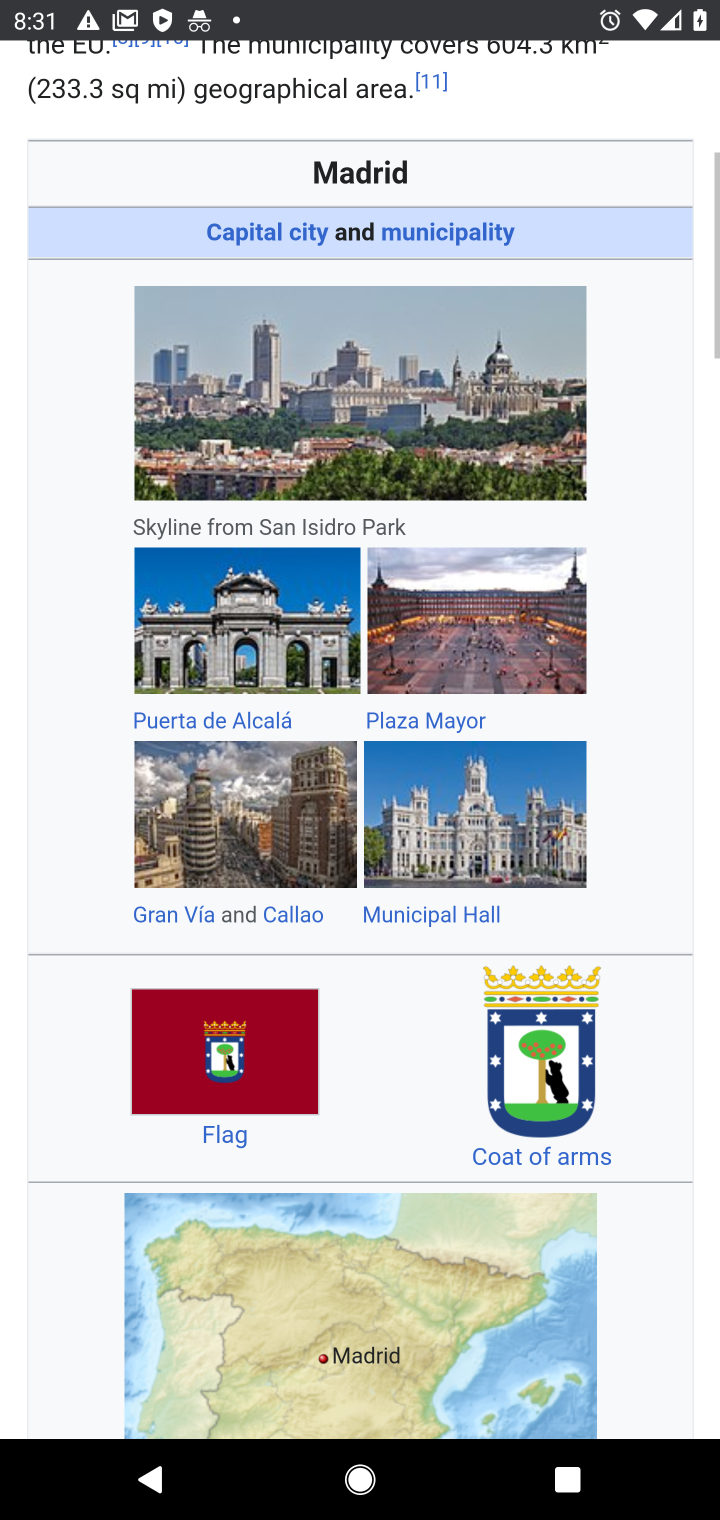
Step 29: drag from (265, 1131) to (286, 174)
Your task to perform on an android device: What is the capital of Spain? Image 30: 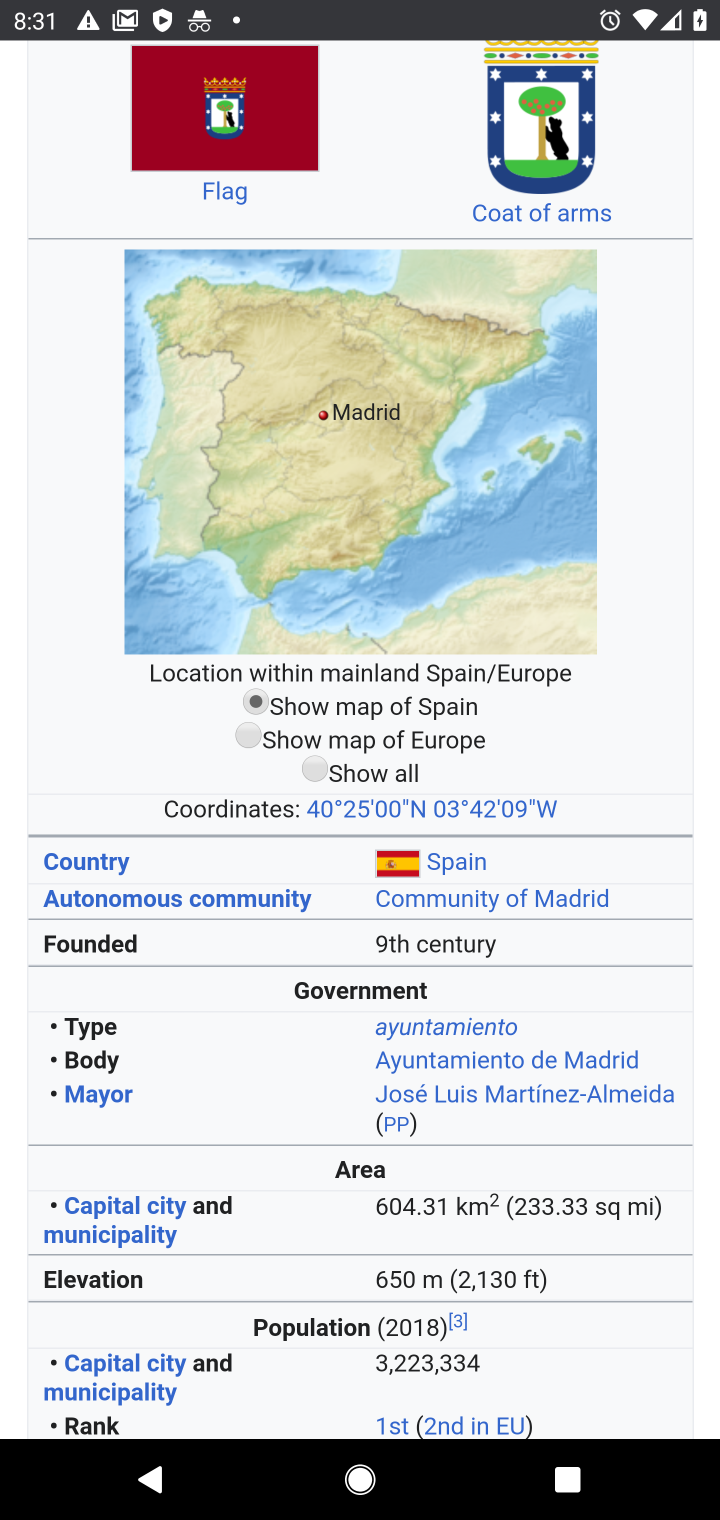
Step 30: drag from (235, 966) to (385, 67)
Your task to perform on an android device: What is the capital of Spain? Image 31: 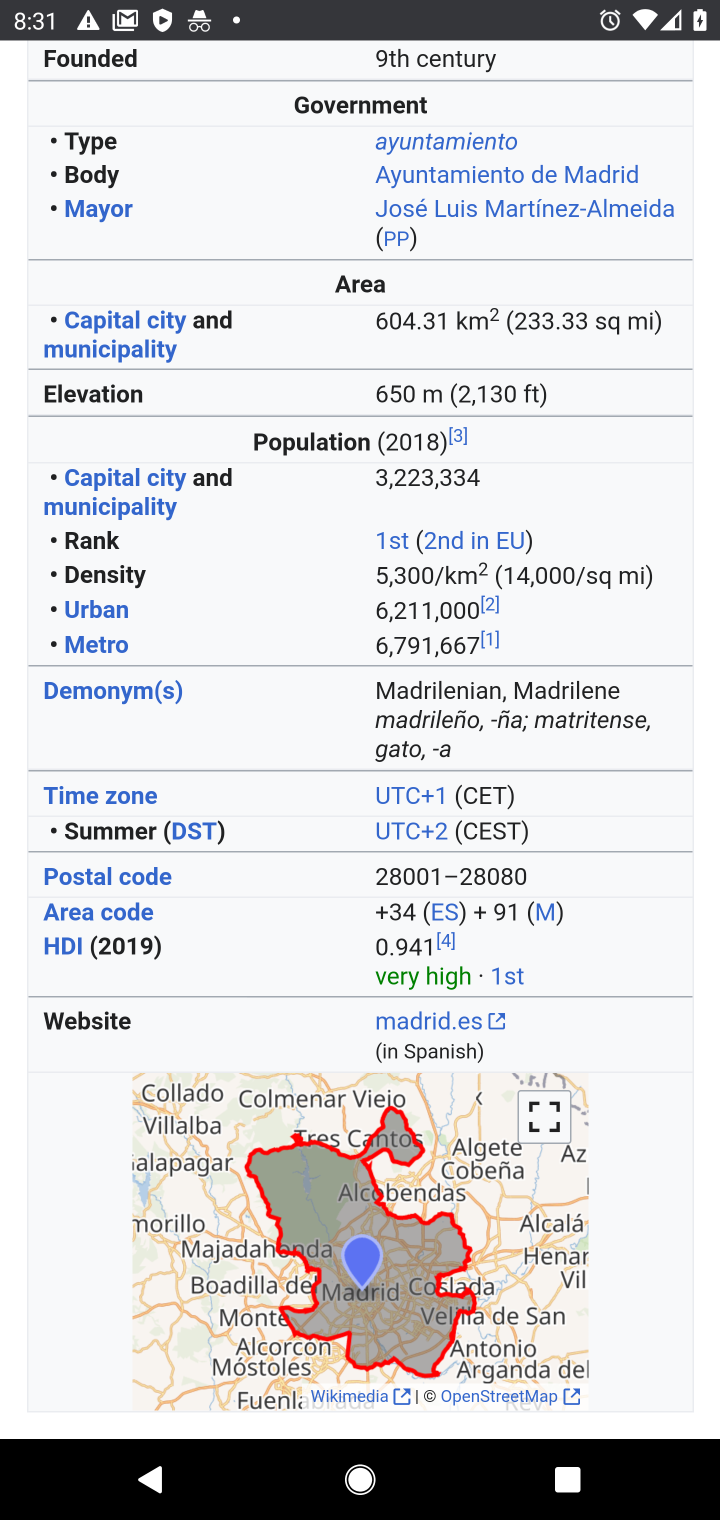
Step 31: drag from (402, 1172) to (483, 42)
Your task to perform on an android device: What is the capital of Spain? Image 32: 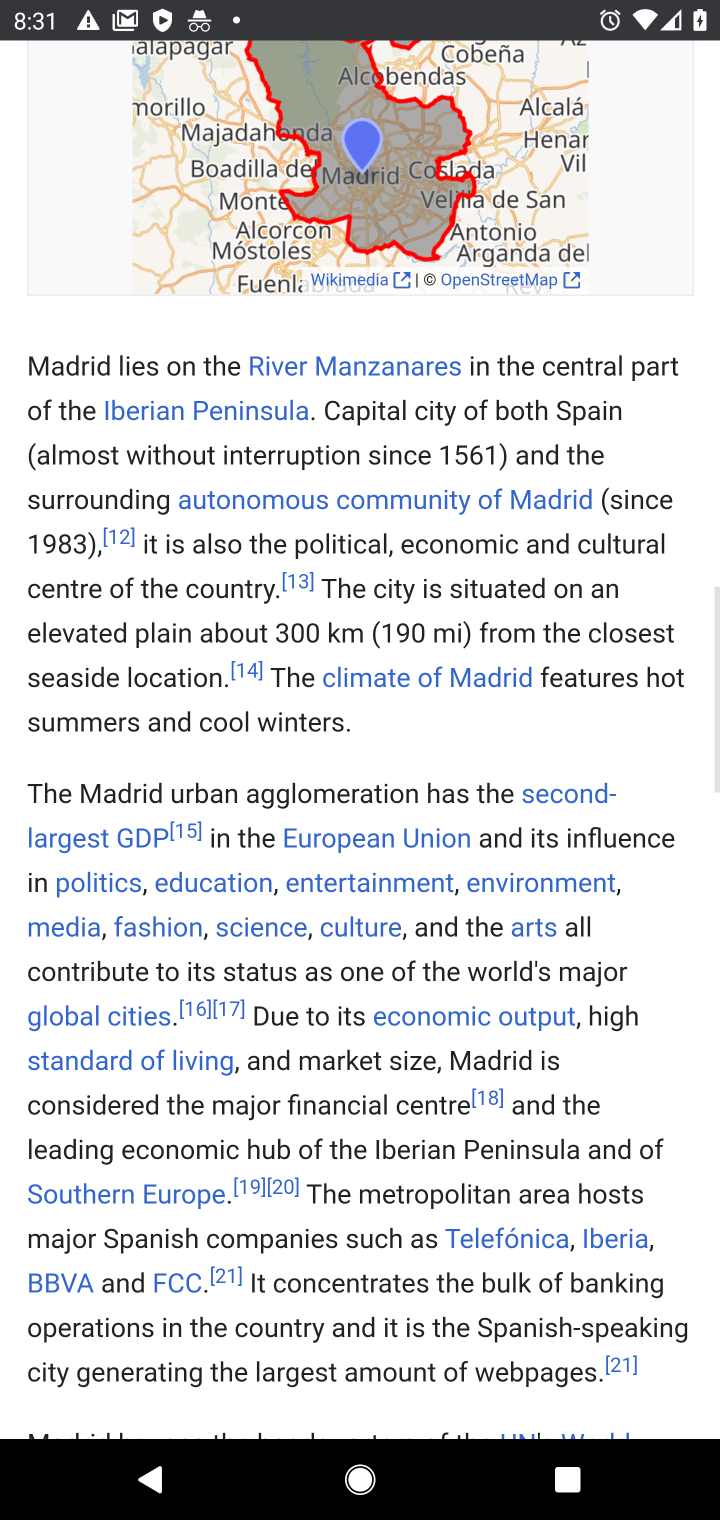
Step 32: drag from (470, 863) to (527, 137)
Your task to perform on an android device: What is the capital of Spain? Image 33: 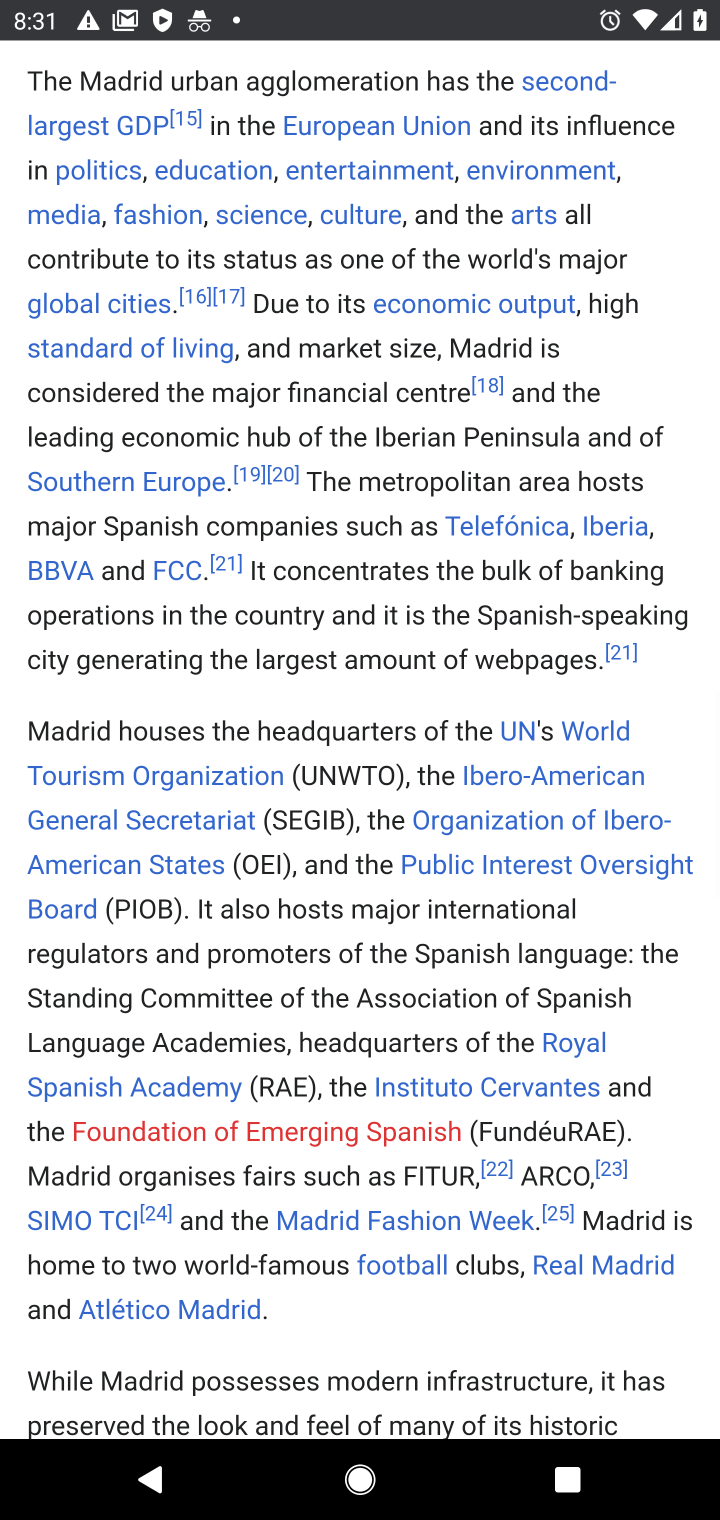
Step 33: drag from (504, 1095) to (597, 92)
Your task to perform on an android device: What is the capital of Spain? Image 34: 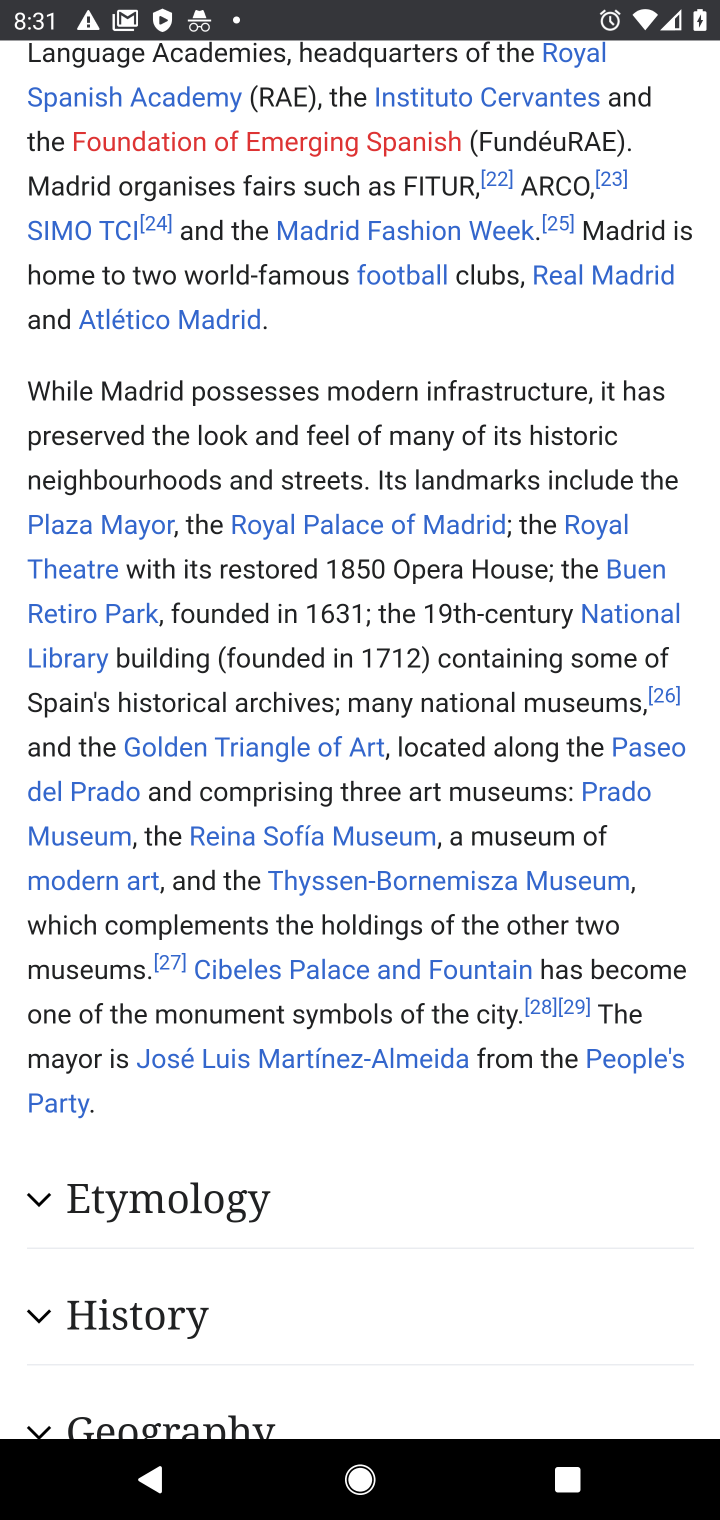
Step 34: drag from (615, 931) to (572, 91)
Your task to perform on an android device: What is the capital of Spain? Image 35: 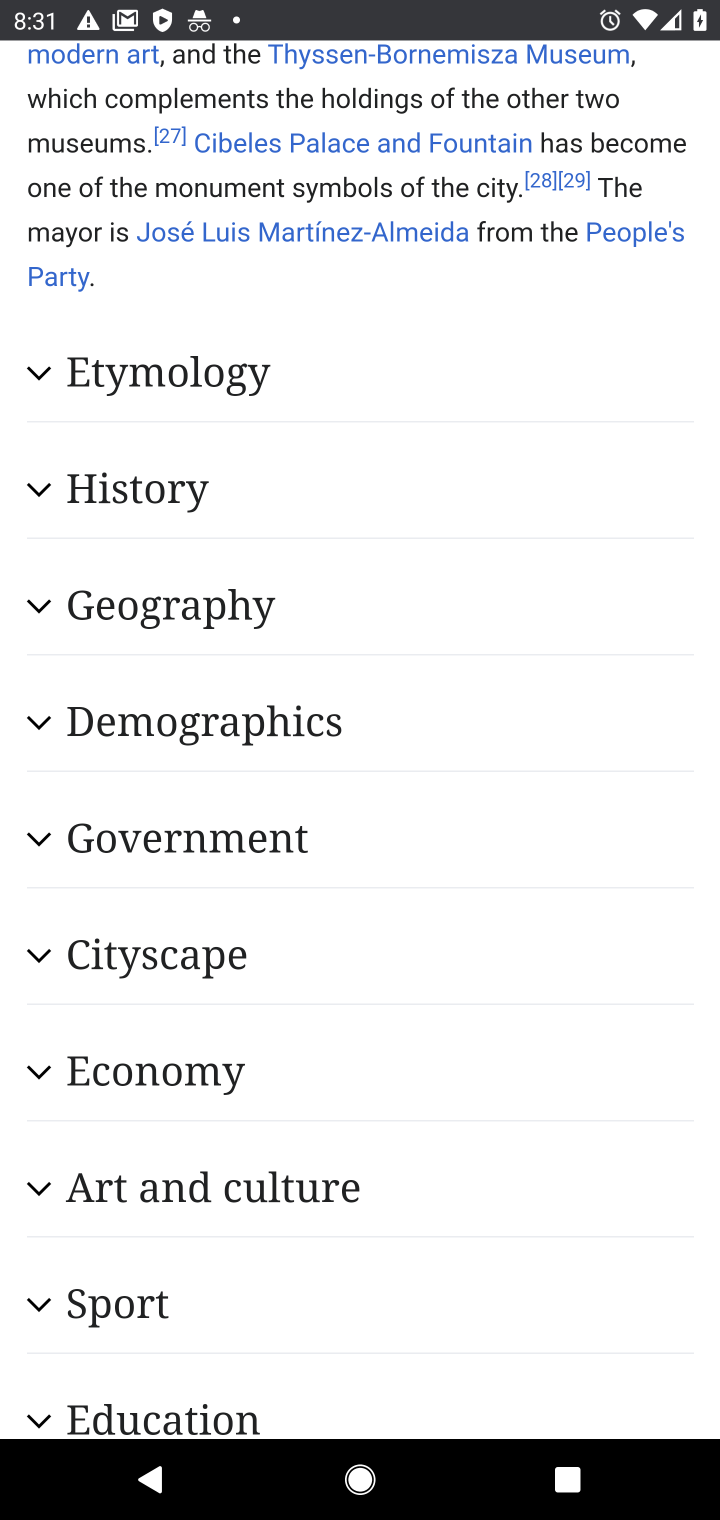
Step 35: click (39, 376)
Your task to perform on an android device: What is the capital of Spain? Image 36: 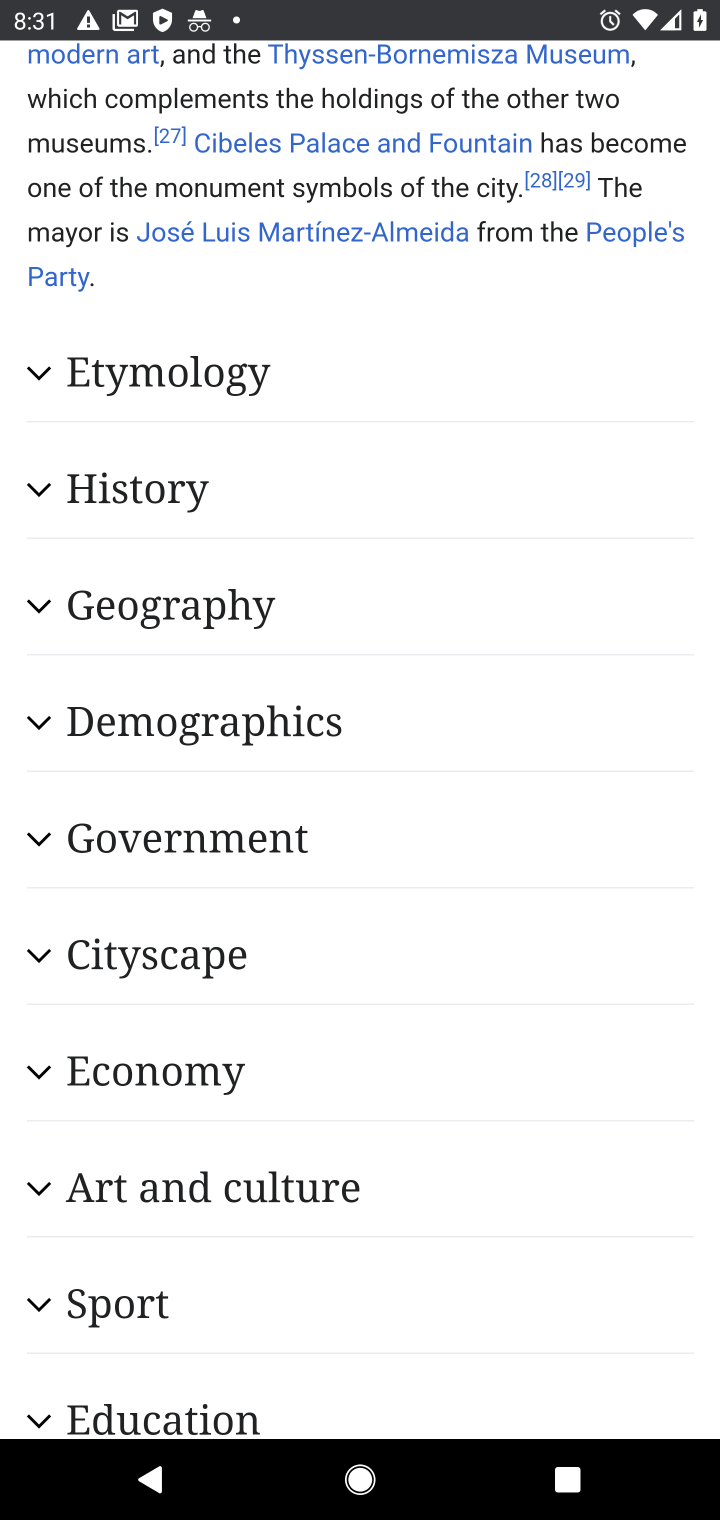
Step 36: click (62, 512)
Your task to perform on an android device: What is the capital of Spain? Image 37: 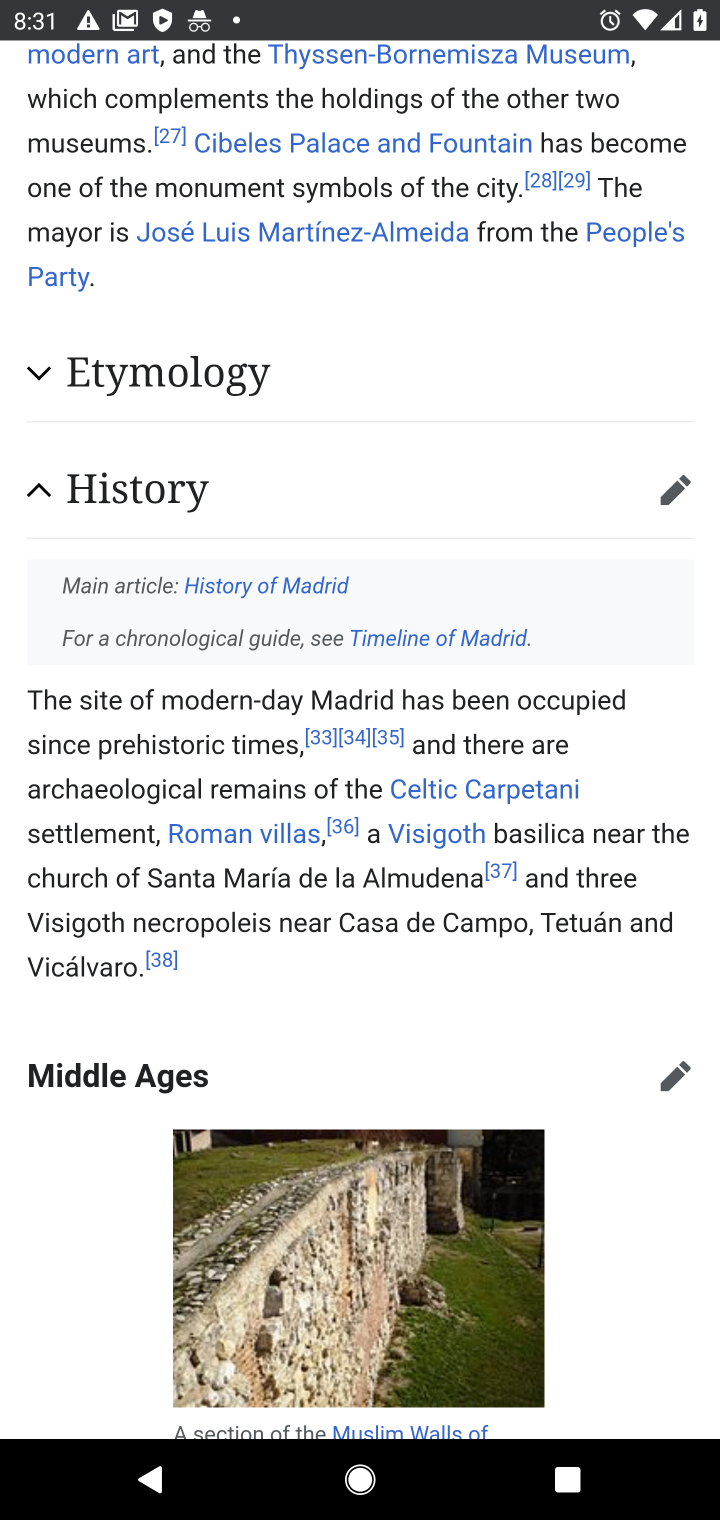
Step 37: task complete